Your task to perform on an android device: Search for the best rated 3d printer on Amazon. Image 0: 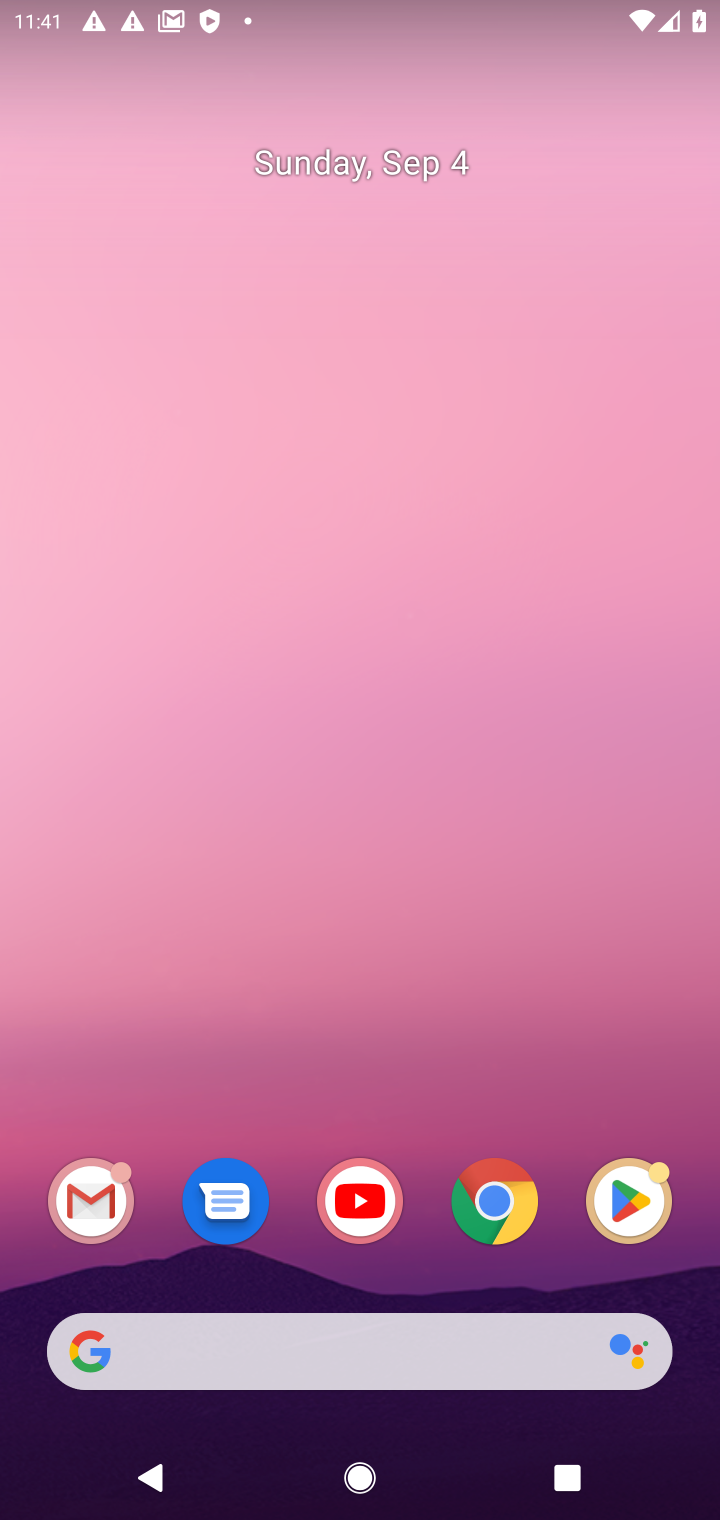
Step 0: click (497, 1196)
Your task to perform on an android device: Search for the best rated 3d printer on Amazon. Image 1: 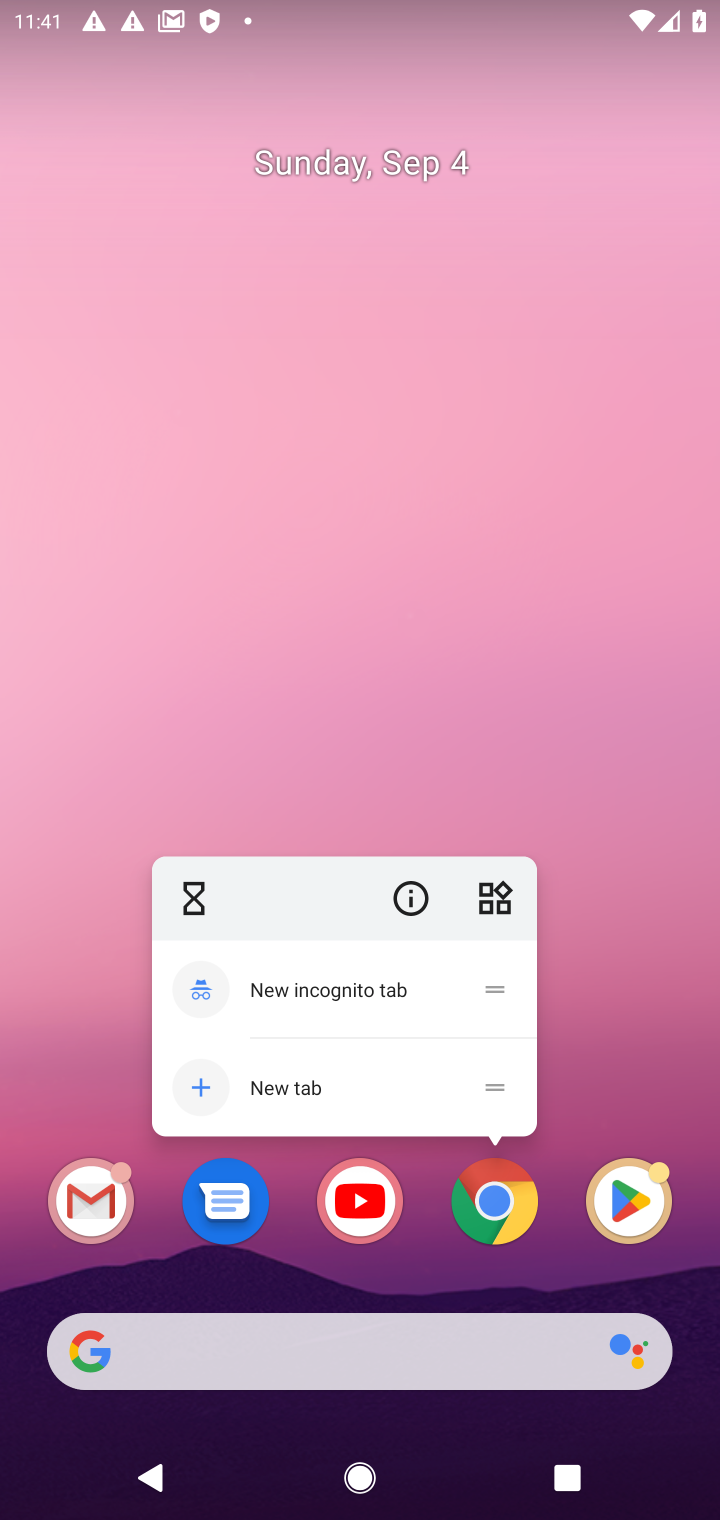
Step 1: click (499, 1190)
Your task to perform on an android device: Search for the best rated 3d printer on Amazon. Image 2: 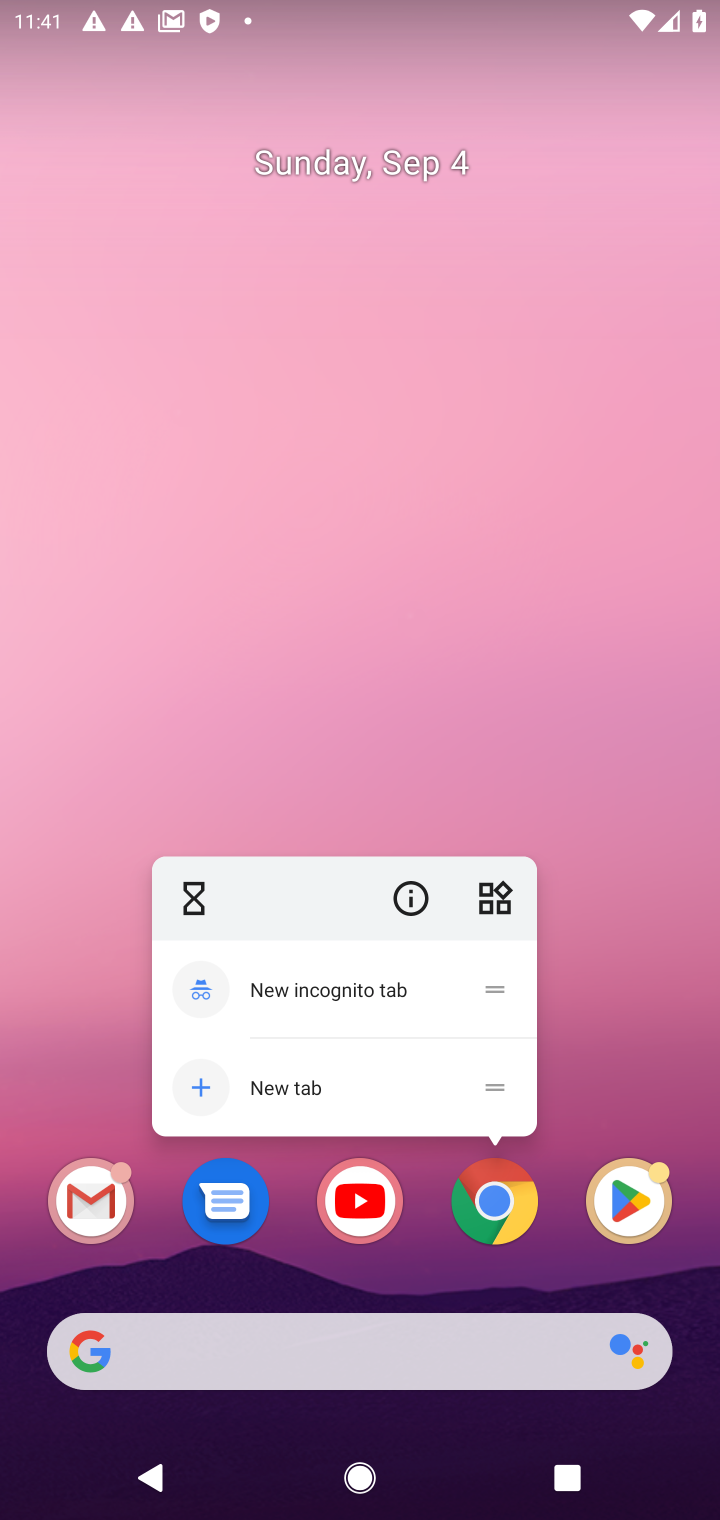
Step 2: click (505, 1217)
Your task to perform on an android device: Search for the best rated 3d printer on Amazon. Image 3: 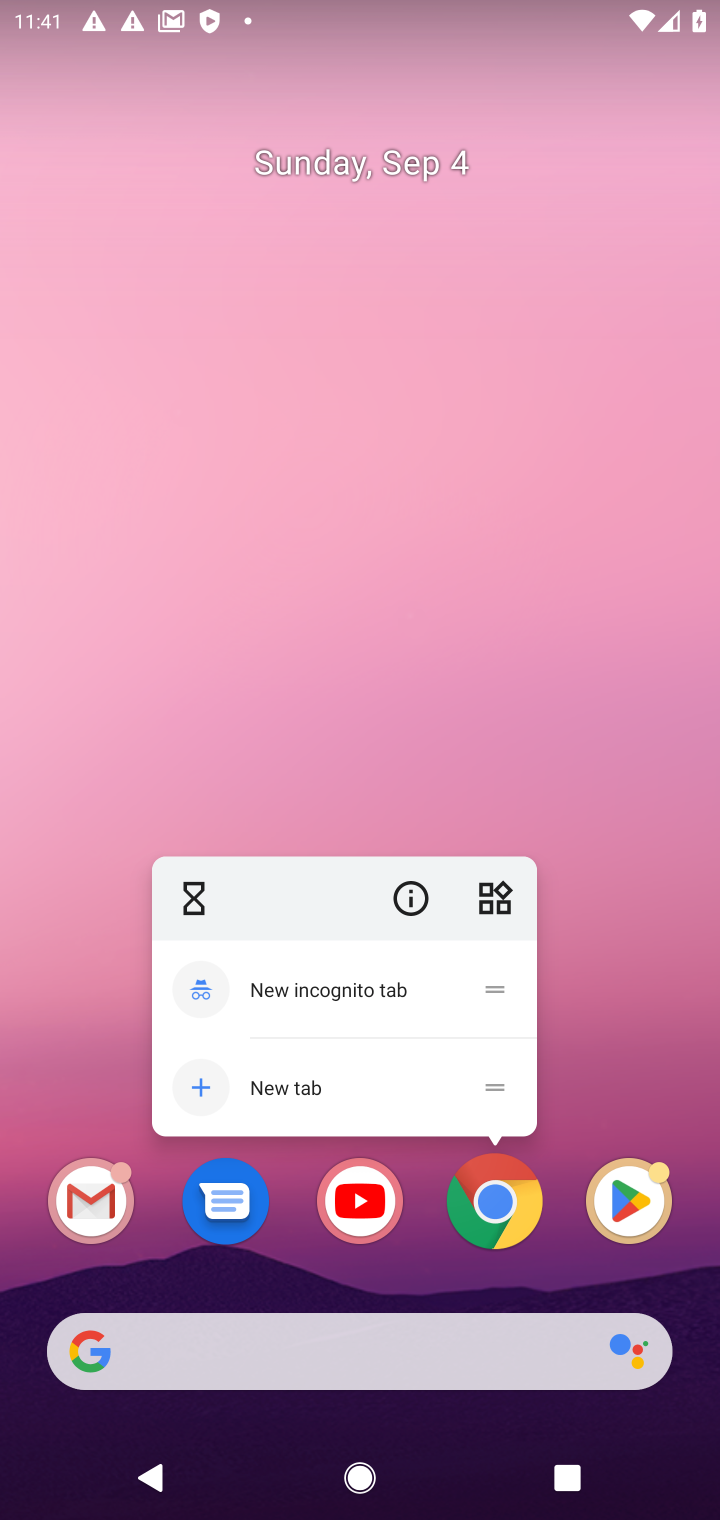
Step 3: click (505, 1217)
Your task to perform on an android device: Search for the best rated 3d printer on Amazon. Image 4: 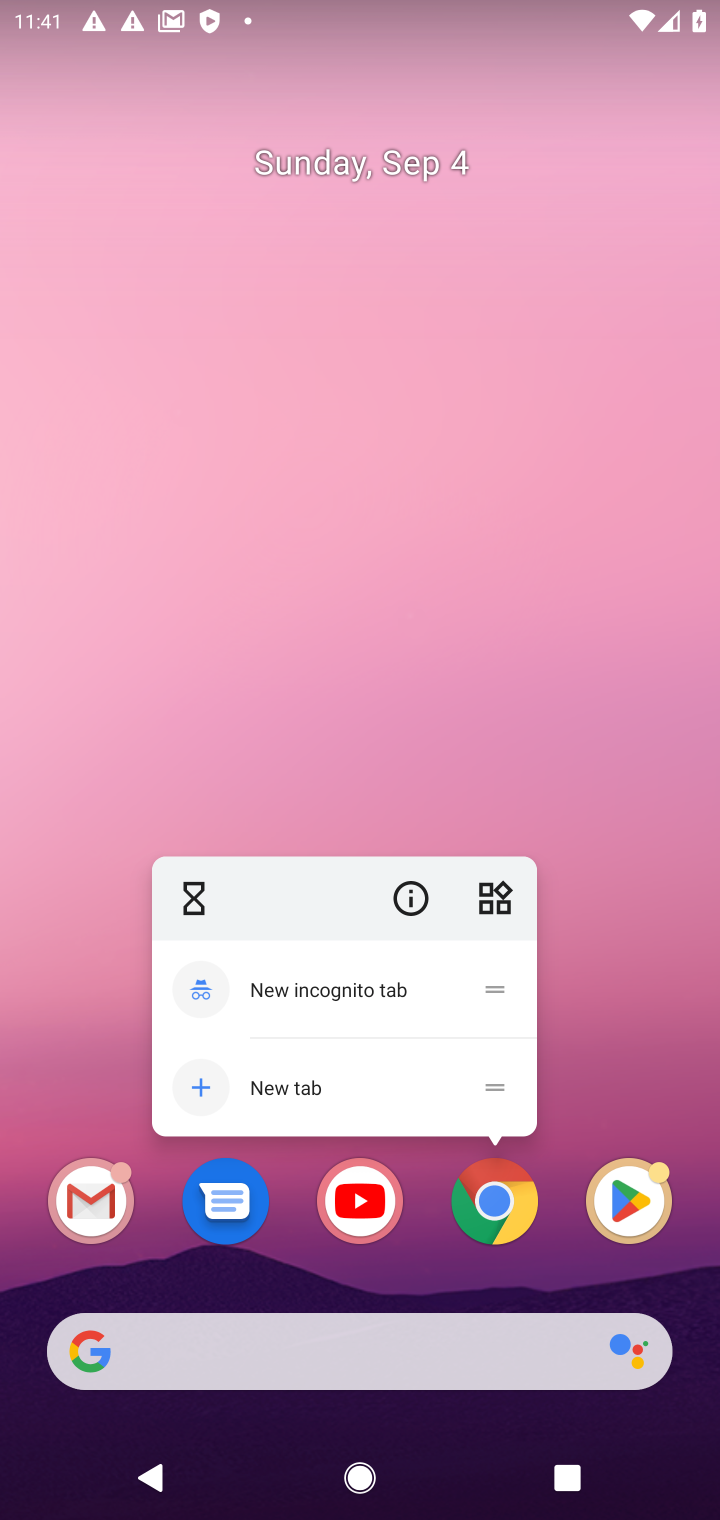
Step 4: click (497, 1196)
Your task to perform on an android device: Search for the best rated 3d printer on Amazon. Image 5: 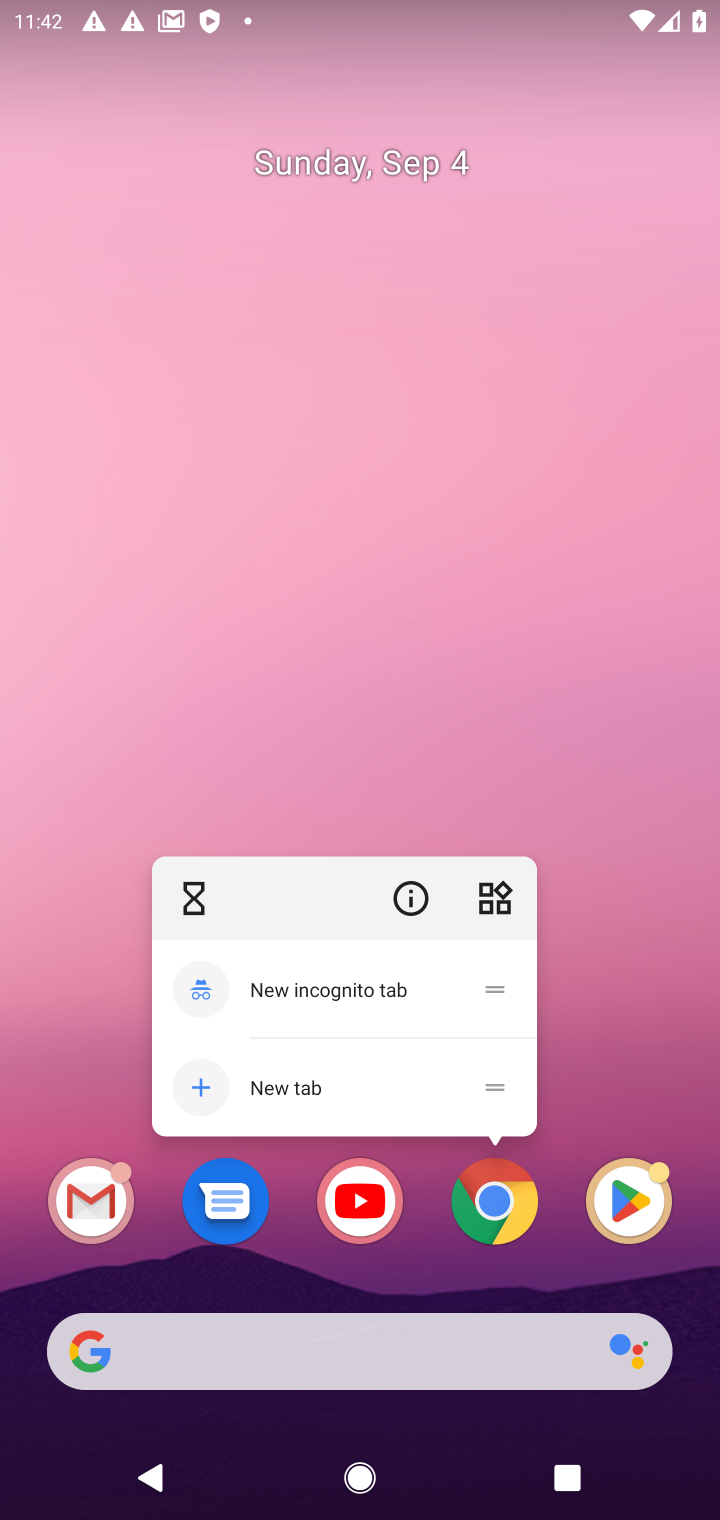
Step 5: click (495, 1229)
Your task to perform on an android device: Search for the best rated 3d printer on Amazon. Image 6: 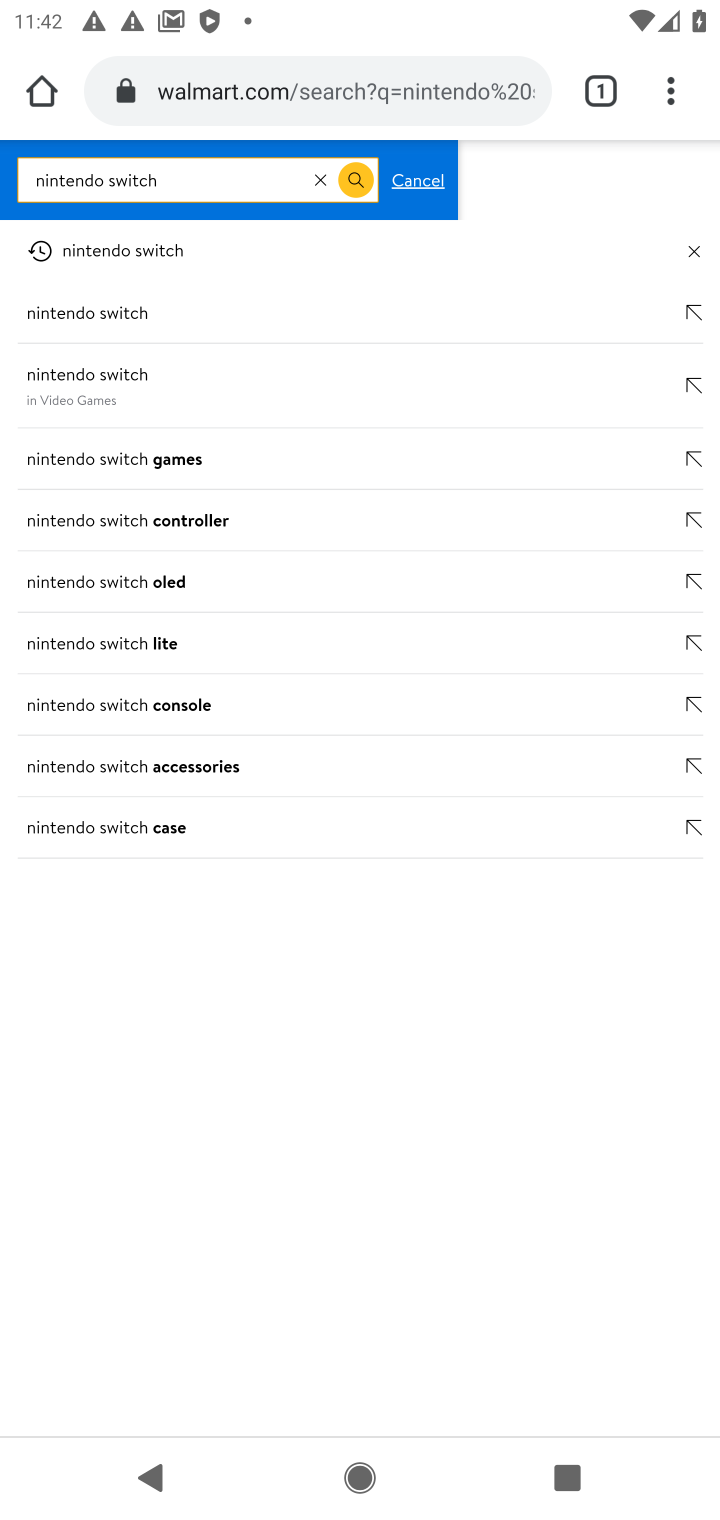
Step 6: click (483, 1197)
Your task to perform on an android device: Search for the best rated 3d printer on Amazon. Image 7: 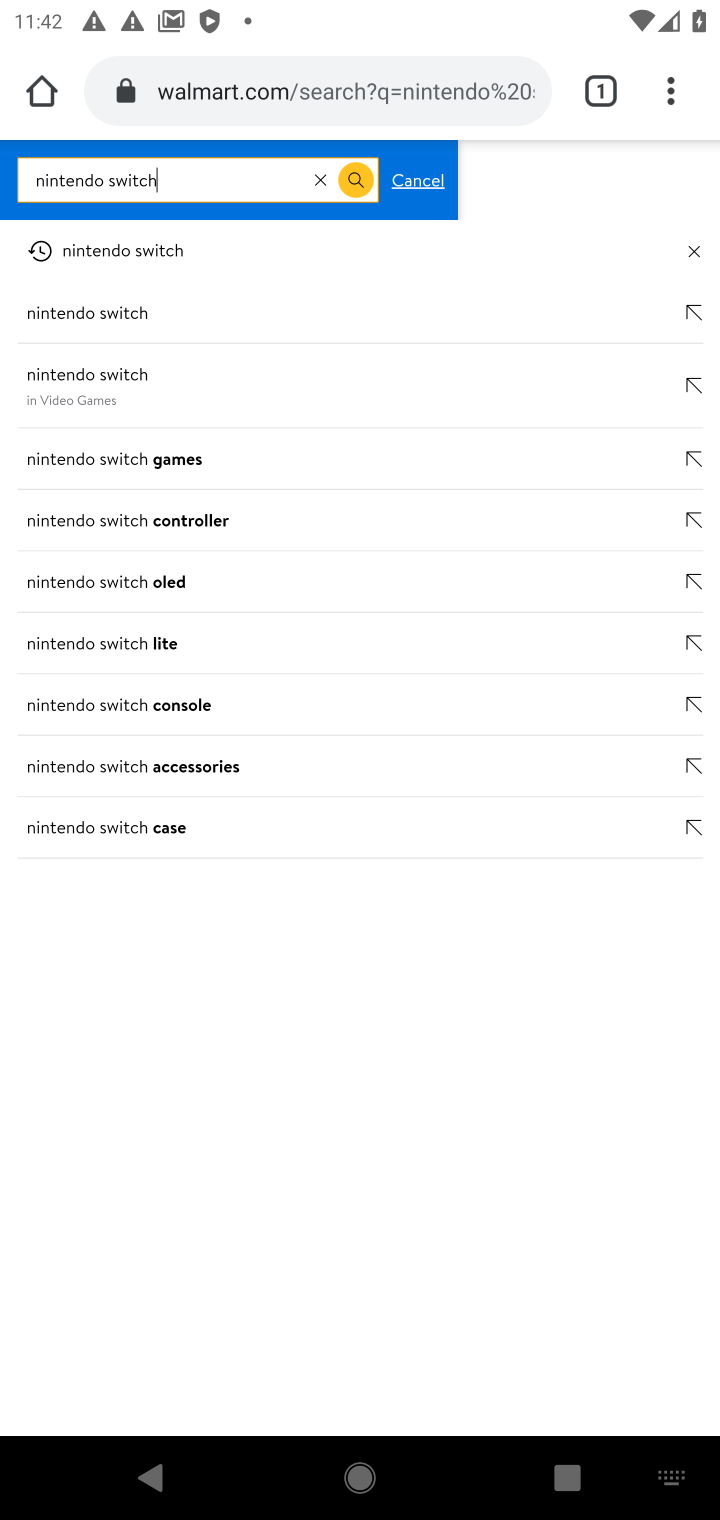
Step 7: click (356, 88)
Your task to perform on an android device: Search for the best rated 3d printer on Amazon. Image 8: 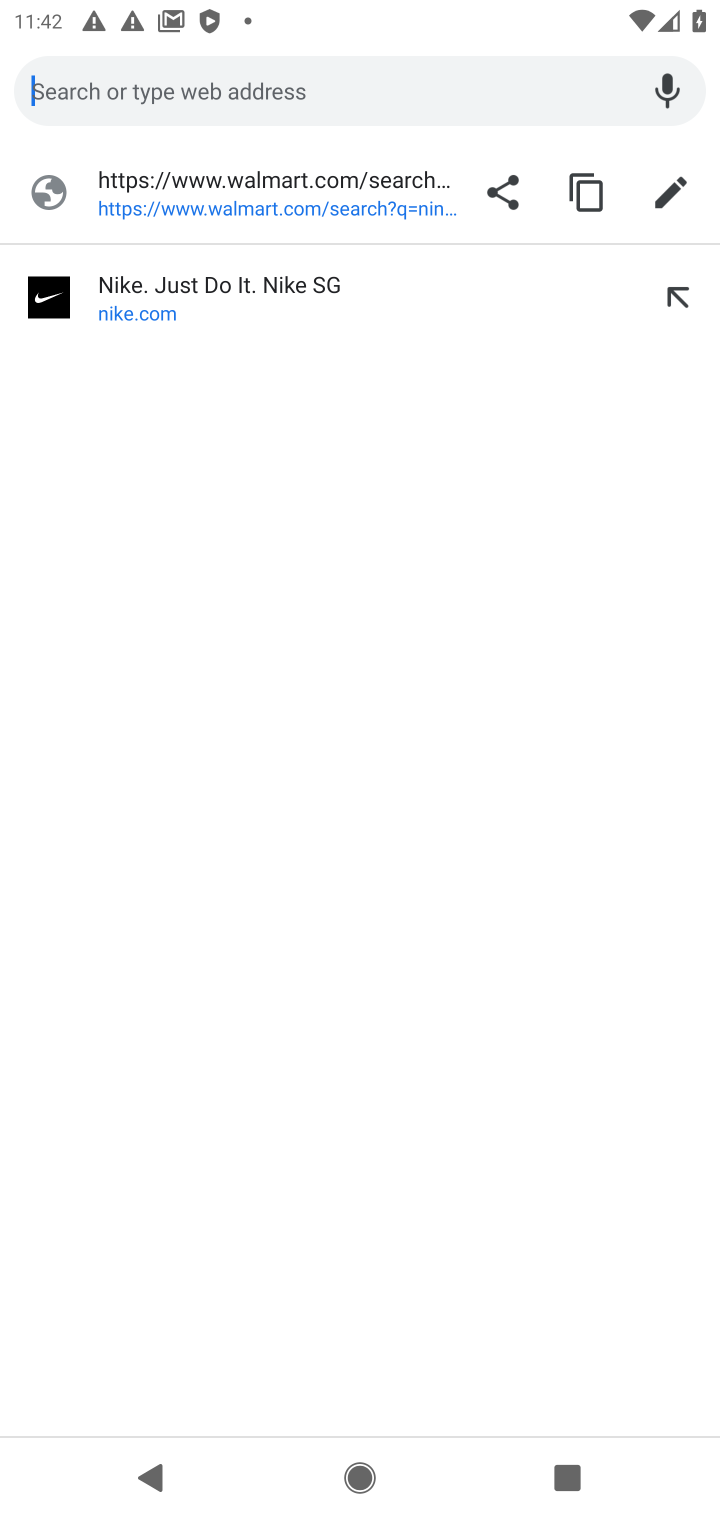
Step 8: type "amazon.com"
Your task to perform on an android device: Search for the best rated 3d printer on Amazon. Image 9: 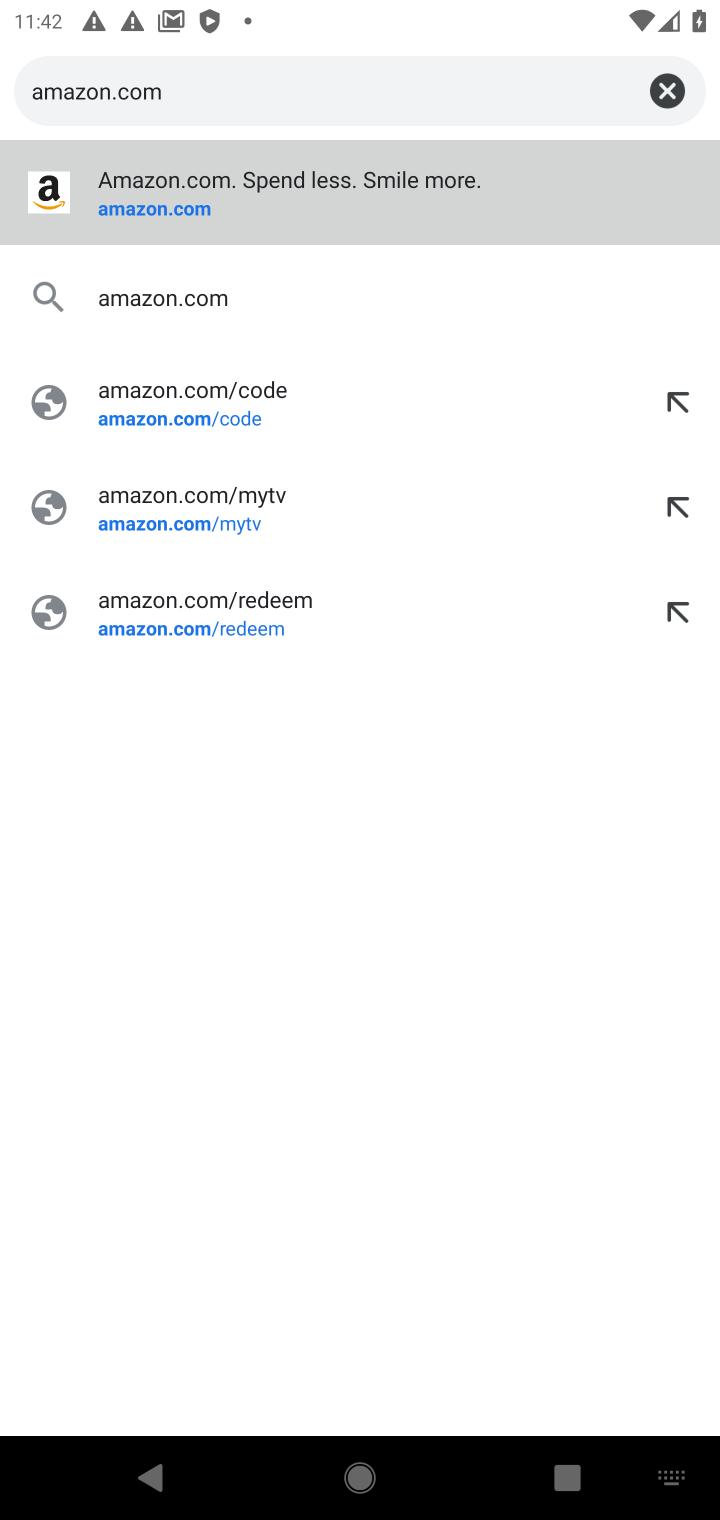
Step 9: click (132, 193)
Your task to perform on an android device: Search for the best rated 3d printer on Amazon. Image 10: 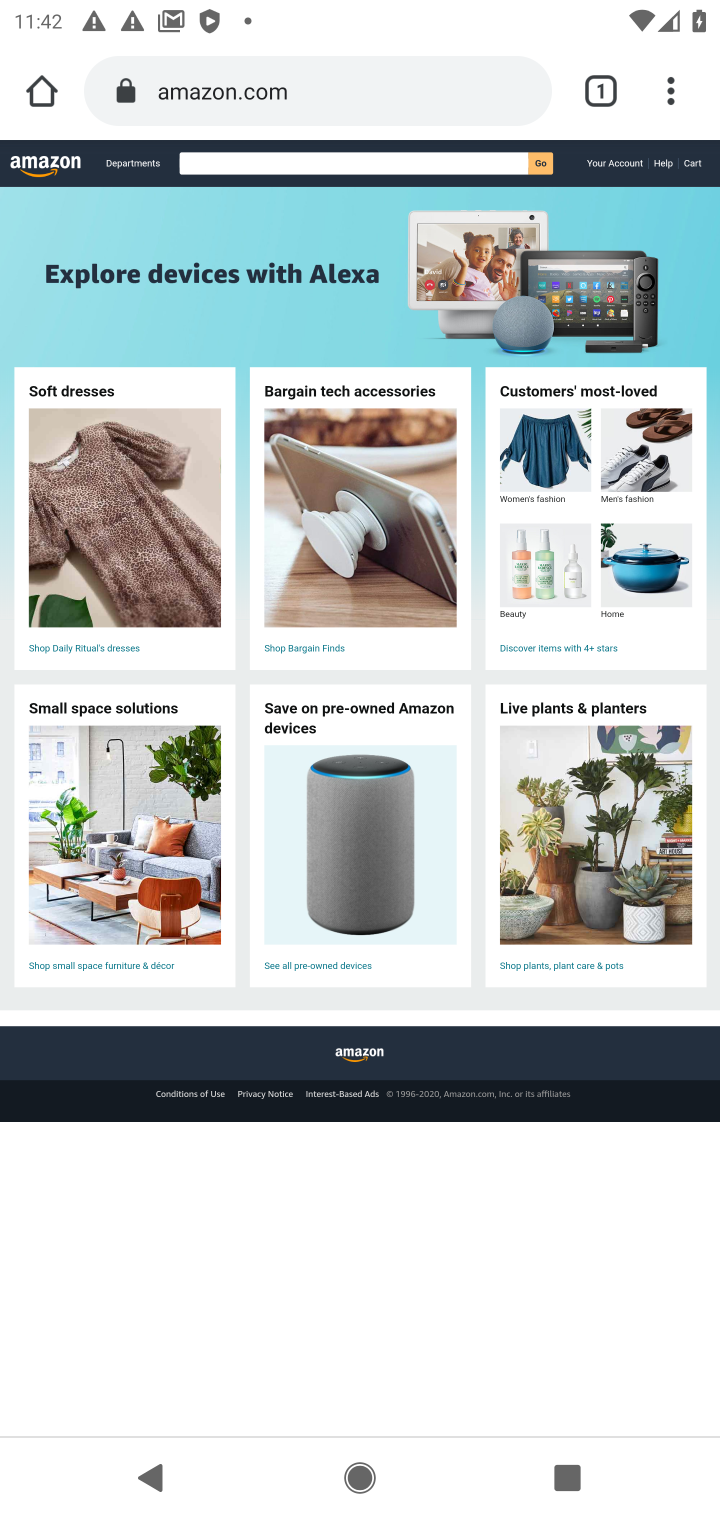
Step 10: click (386, 167)
Your task to perform on an android device: Search for the best rated 3d printer on Amazon. Image 11: 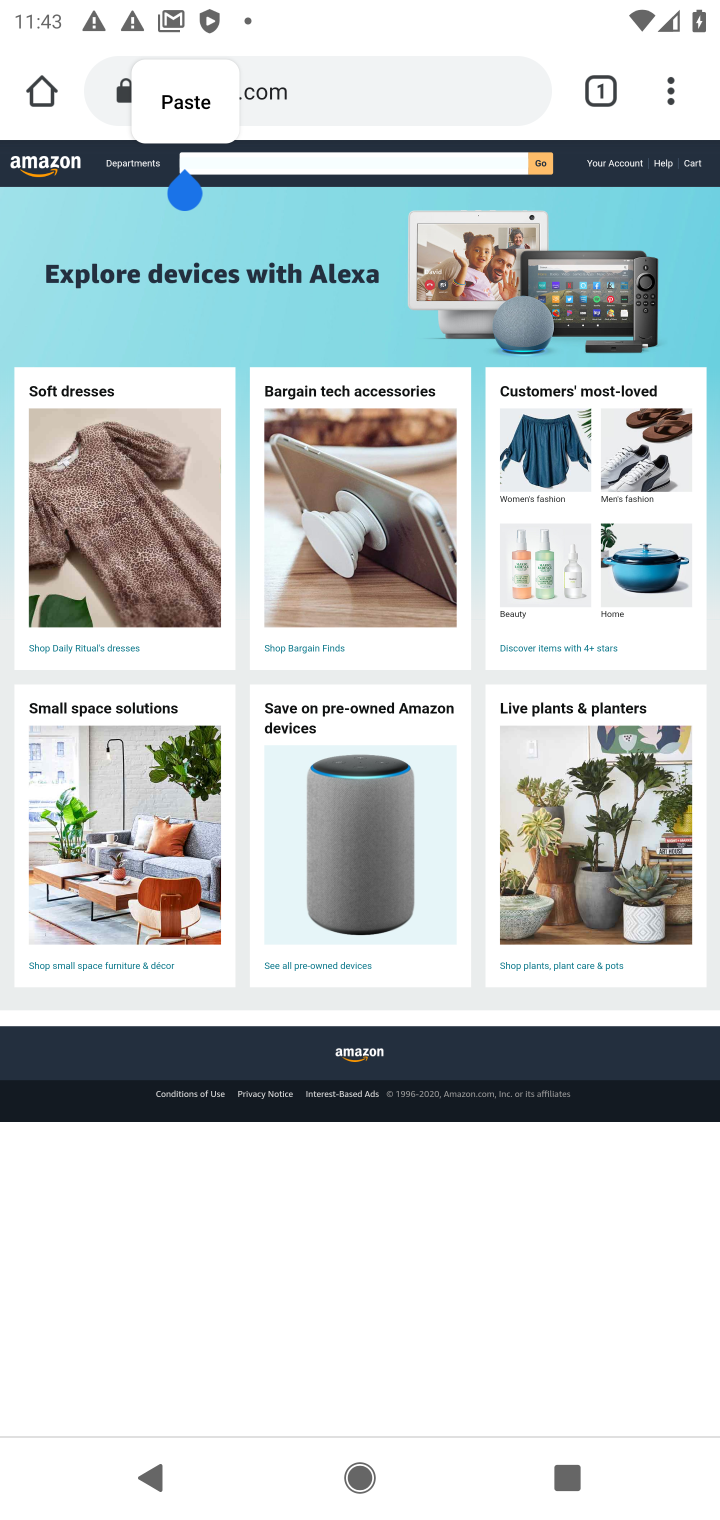
Step 11: type "3d printer"
Your task to perform on an android device: Search for the best rated 3d printer on Amazon. Image 12: 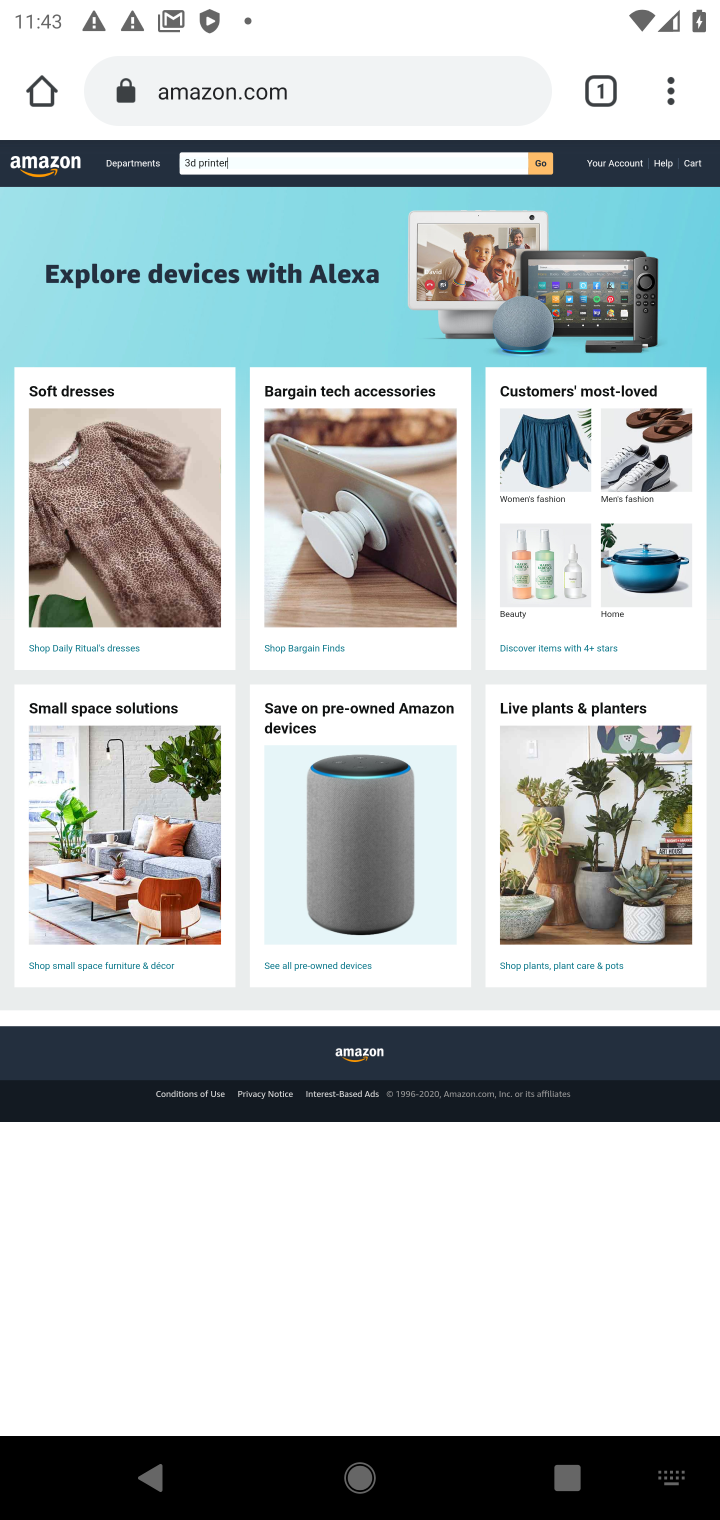
Step 12: click (480, 686)
Your task to perform on an android device: Search for the best rated 3d printer on Amazon. Image 13: 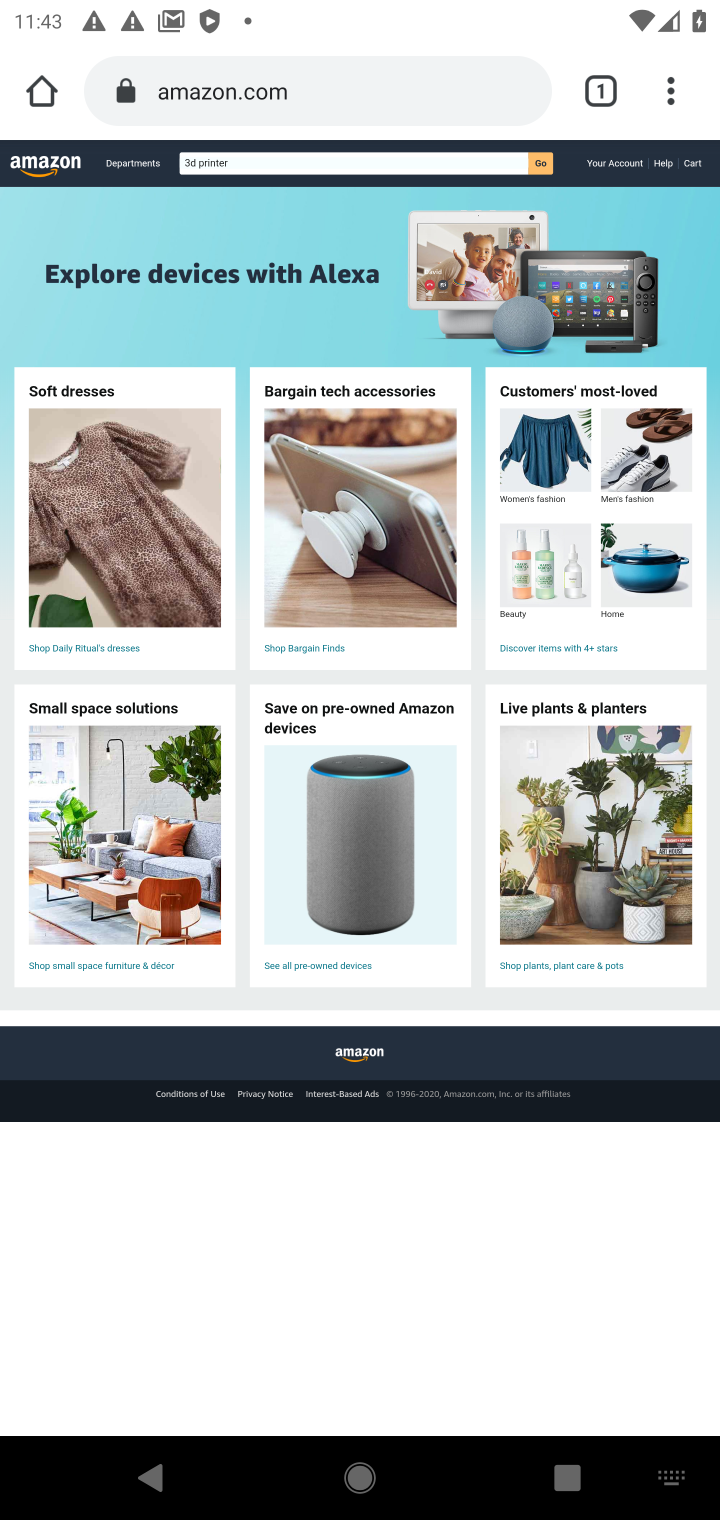
Step 13: drag from (510, 1313) to (459, 491)
Your task to perform on an android device: Search for the best rated 3d printer on Amazon. Image 14: 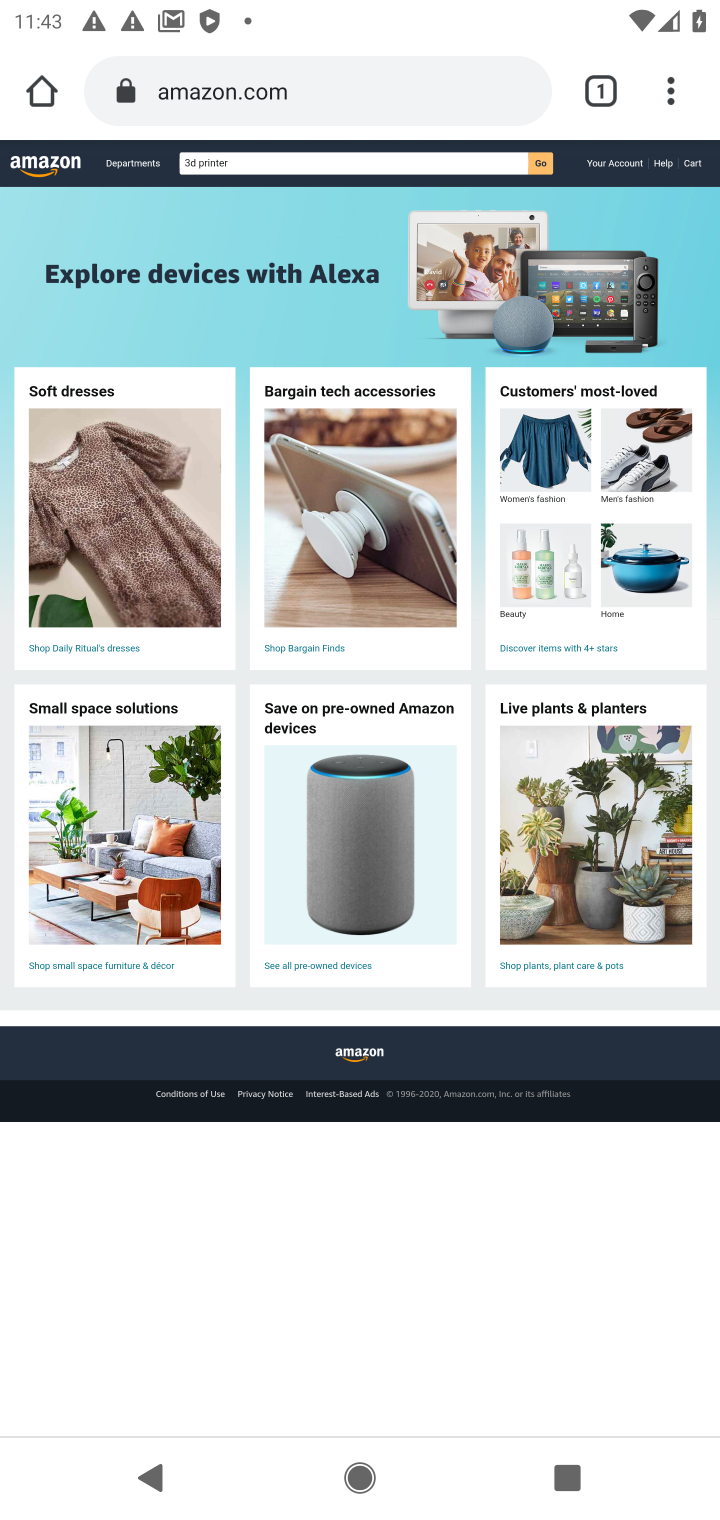
Step 14: click (290, 172)
Your task to perform on an android device: Search for the best rated 3d printer on Amazon. Image 15: 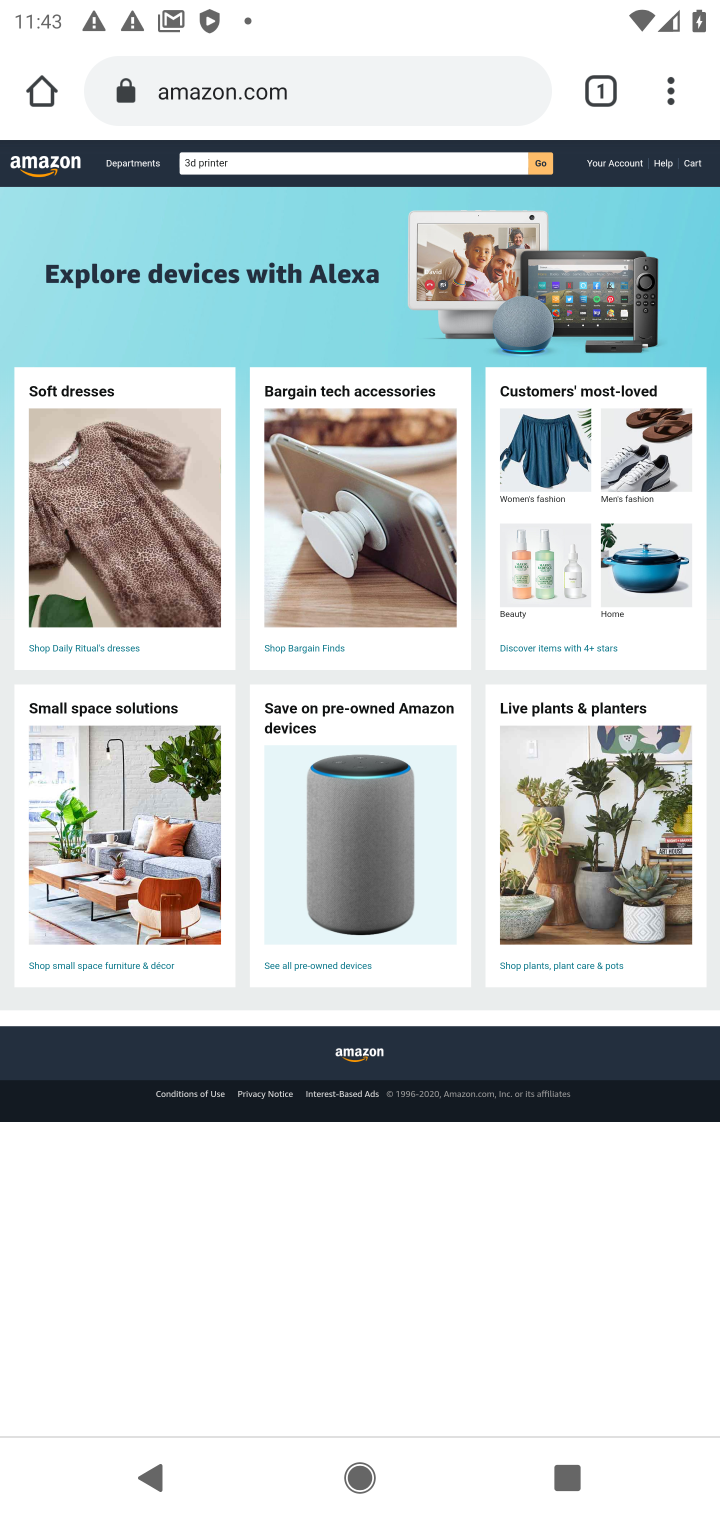
Step 15: drag from (500, 564) to (473, 990)
Your task to perform on an android device: Search for the best rated 3d printer on Amazon. Image 16: 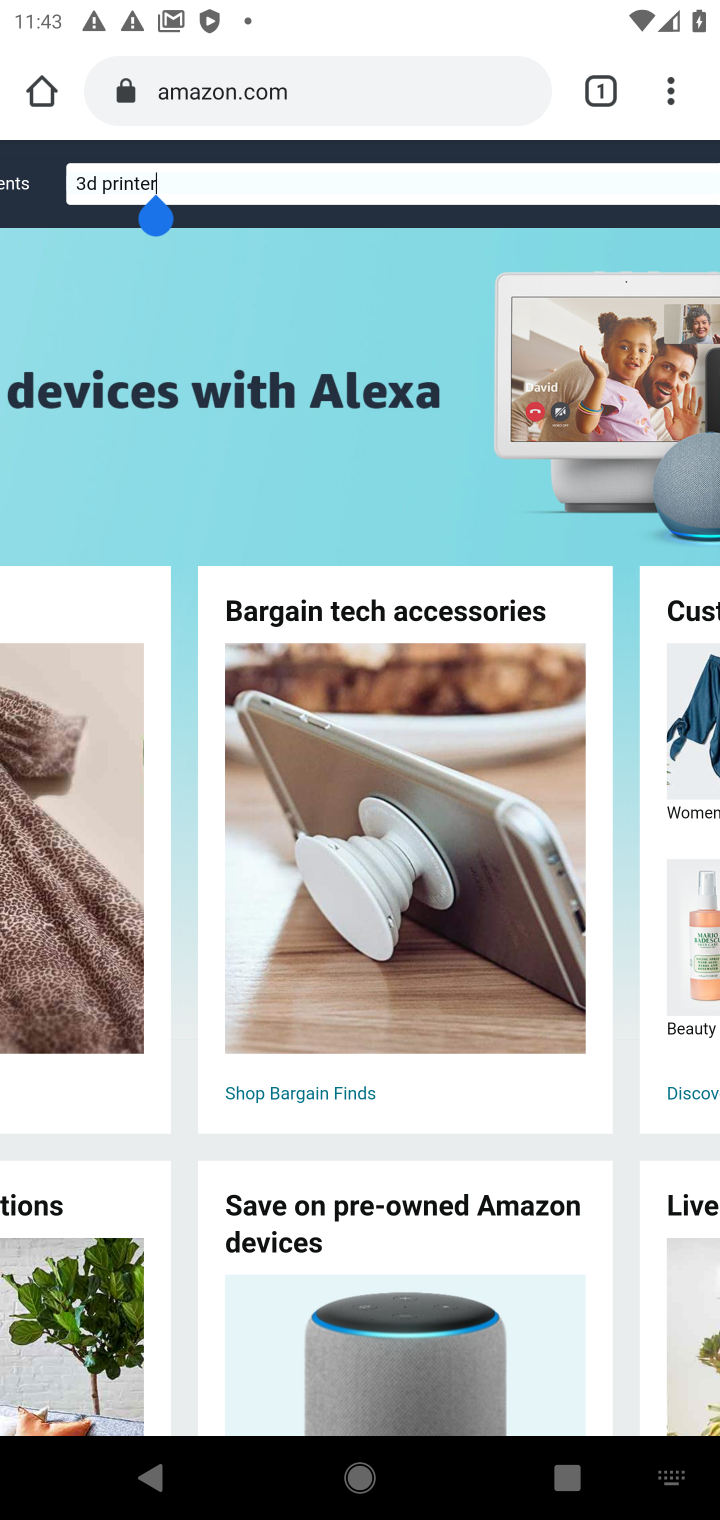
Step 16: press enter
Your task to perform on an android device: Search for the best rated 3d printer on Amazon. Image 17: 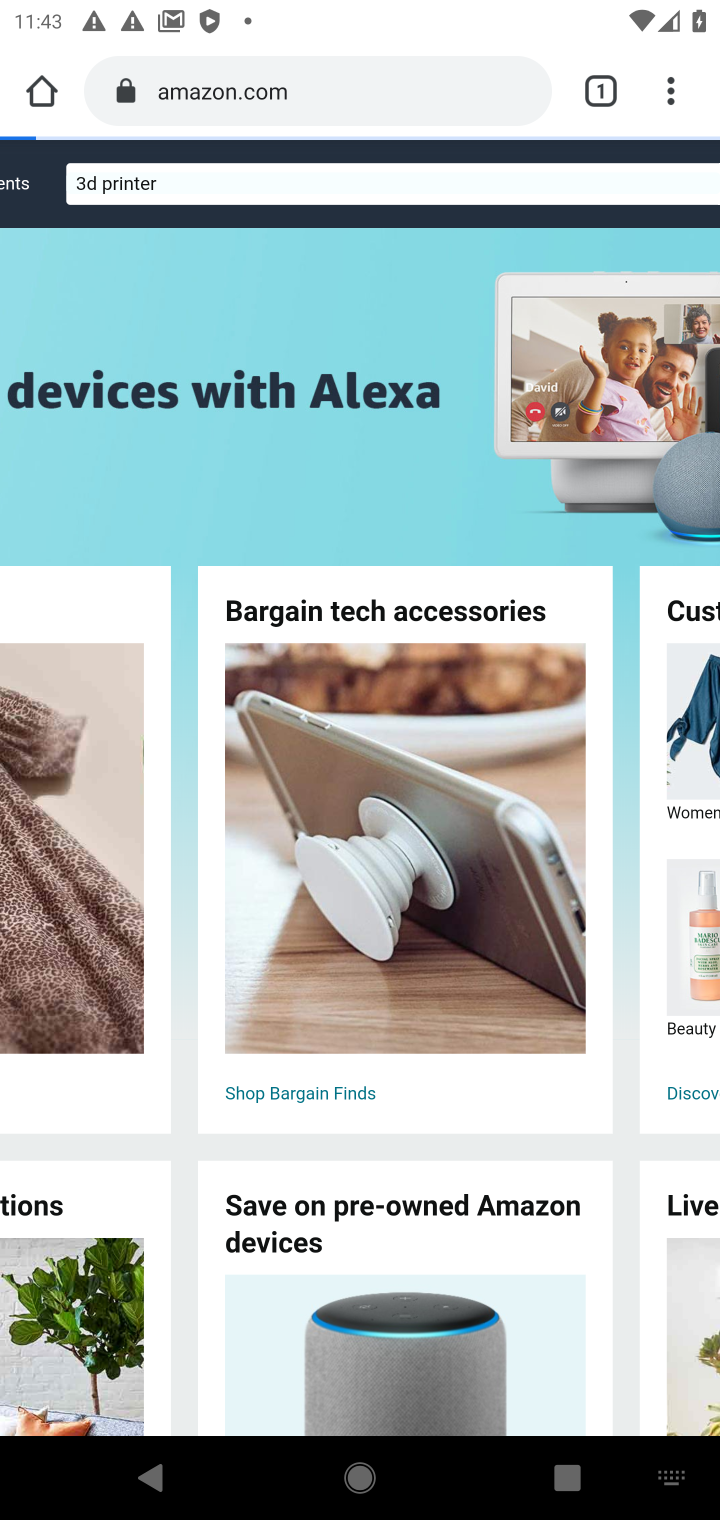
Step 17: click (227, 178)
Your task to perform on an android device: Search for the best rated 3d printer on Amazon. Image 18: 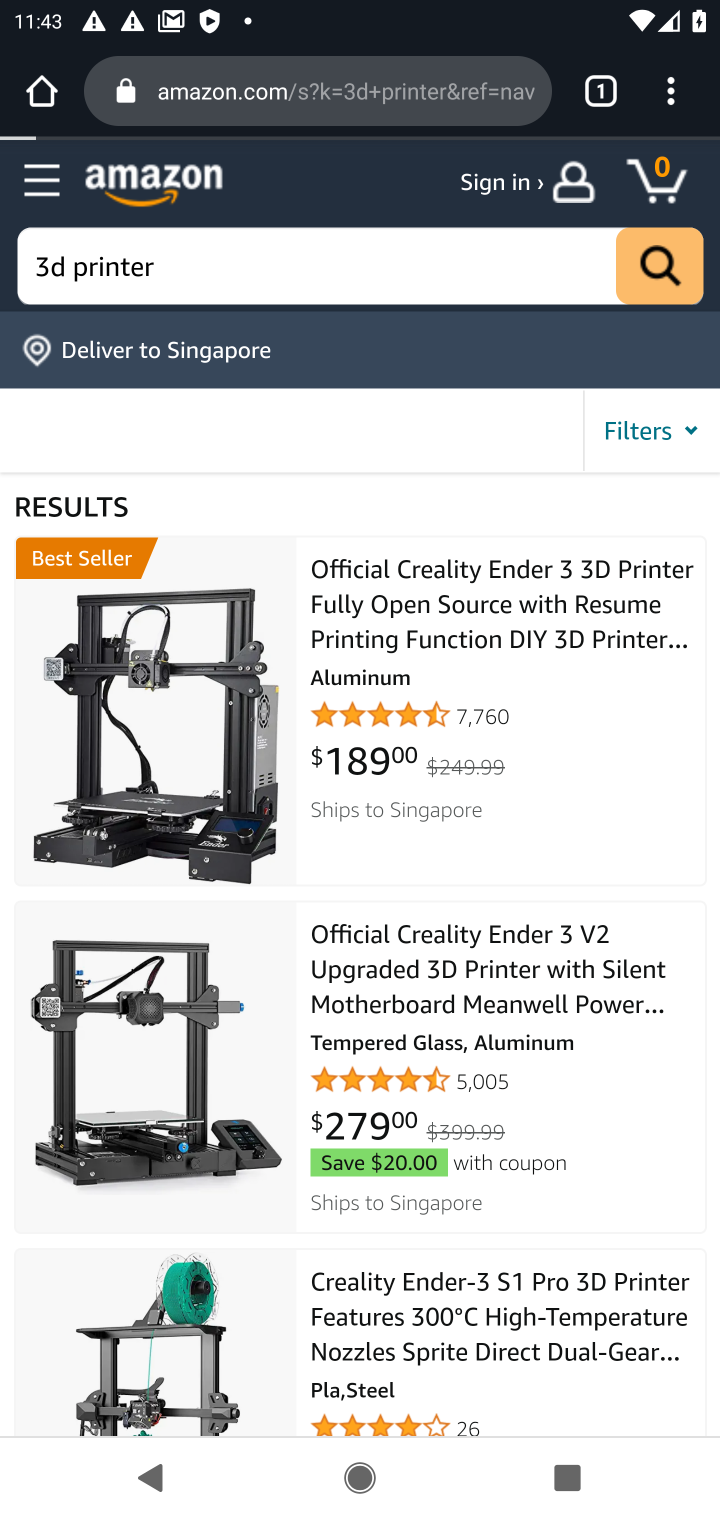
Step 18: drag from (538, 1061) to (608, 407)
Your task to perform on an android device: Search for the best rated 3d printer on Amazon. Image 19: 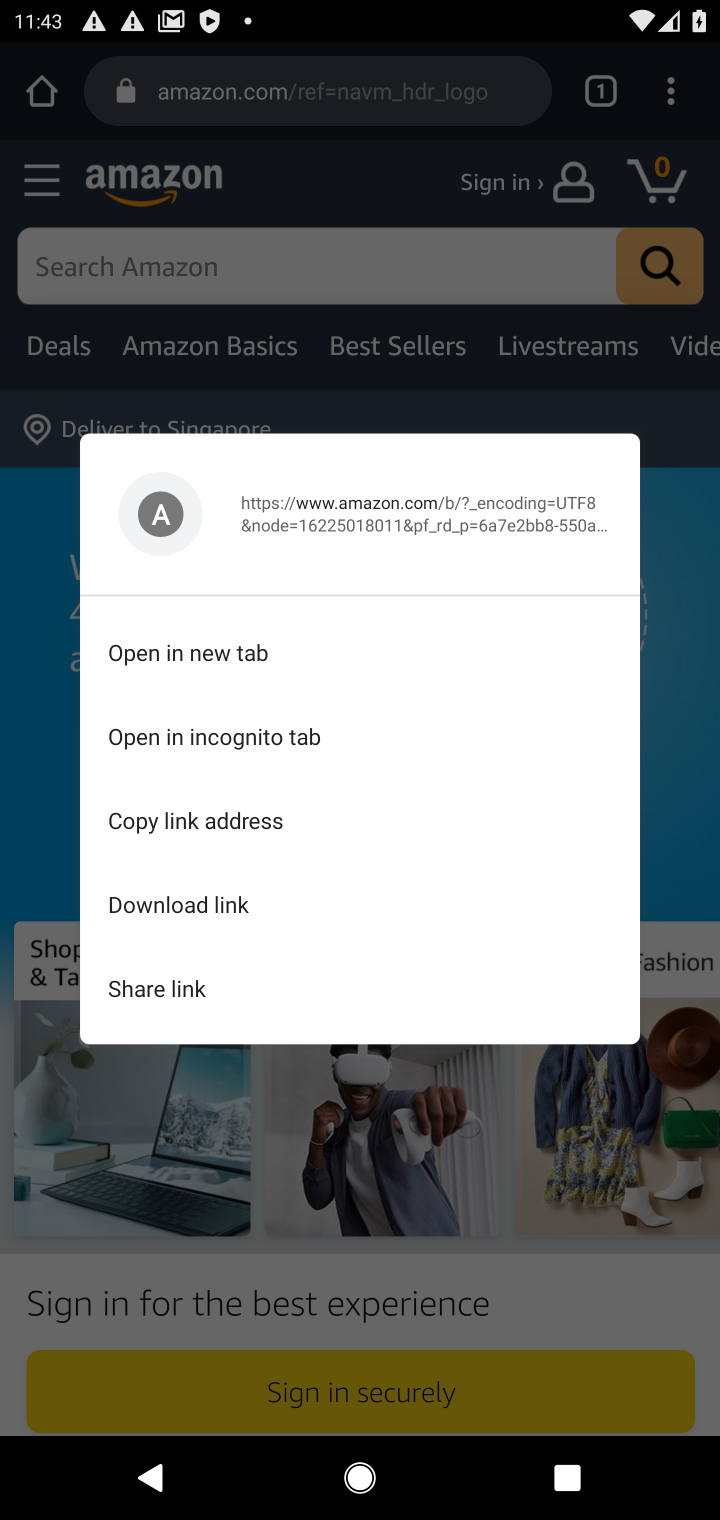
Step 19: drag from (246, 277) to (364, 242)
Your task to perform on an android device: Search for the best rated 3d printer on Amazon. Image 20: 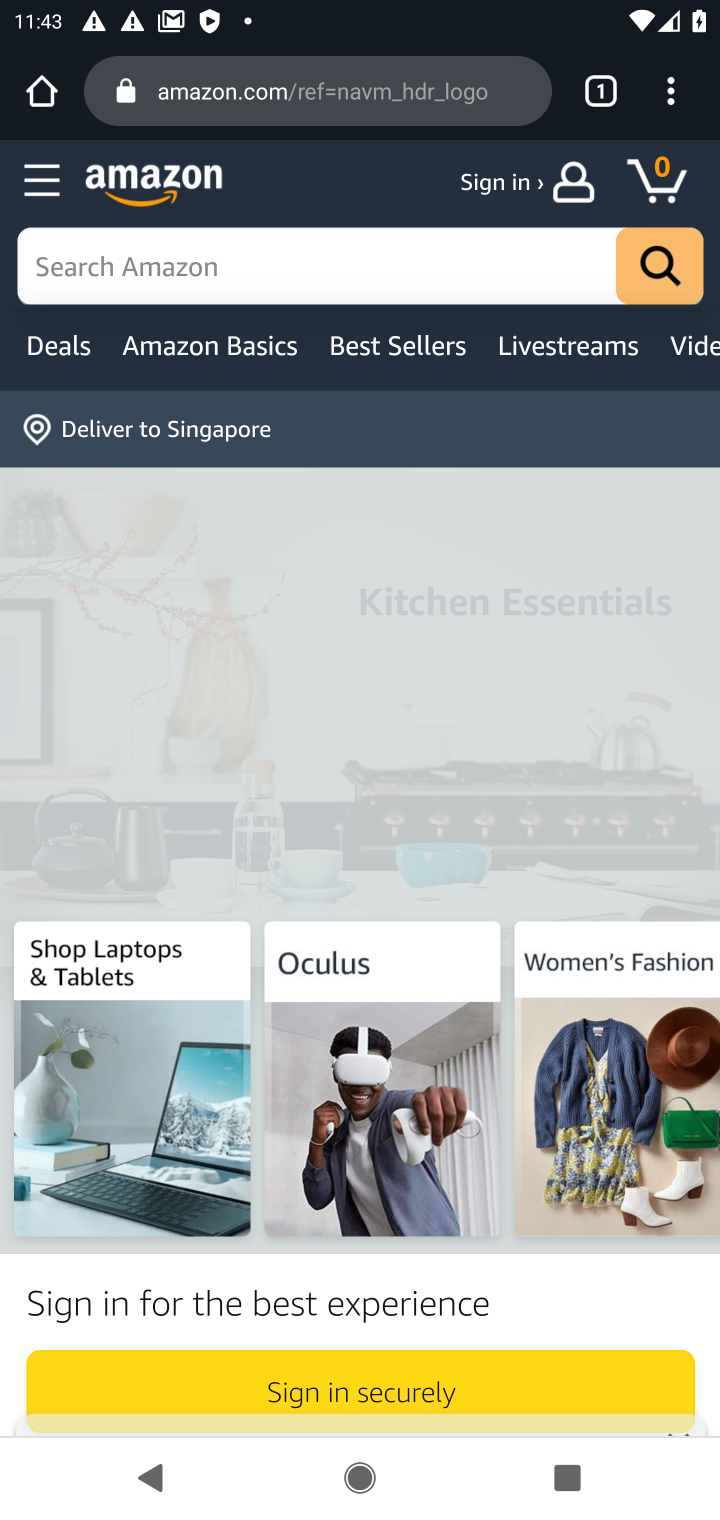
Step 20: click (372, 281)
Your task to perform on an android device: Search for the best rated 3d printer on Amazon. Image 21: 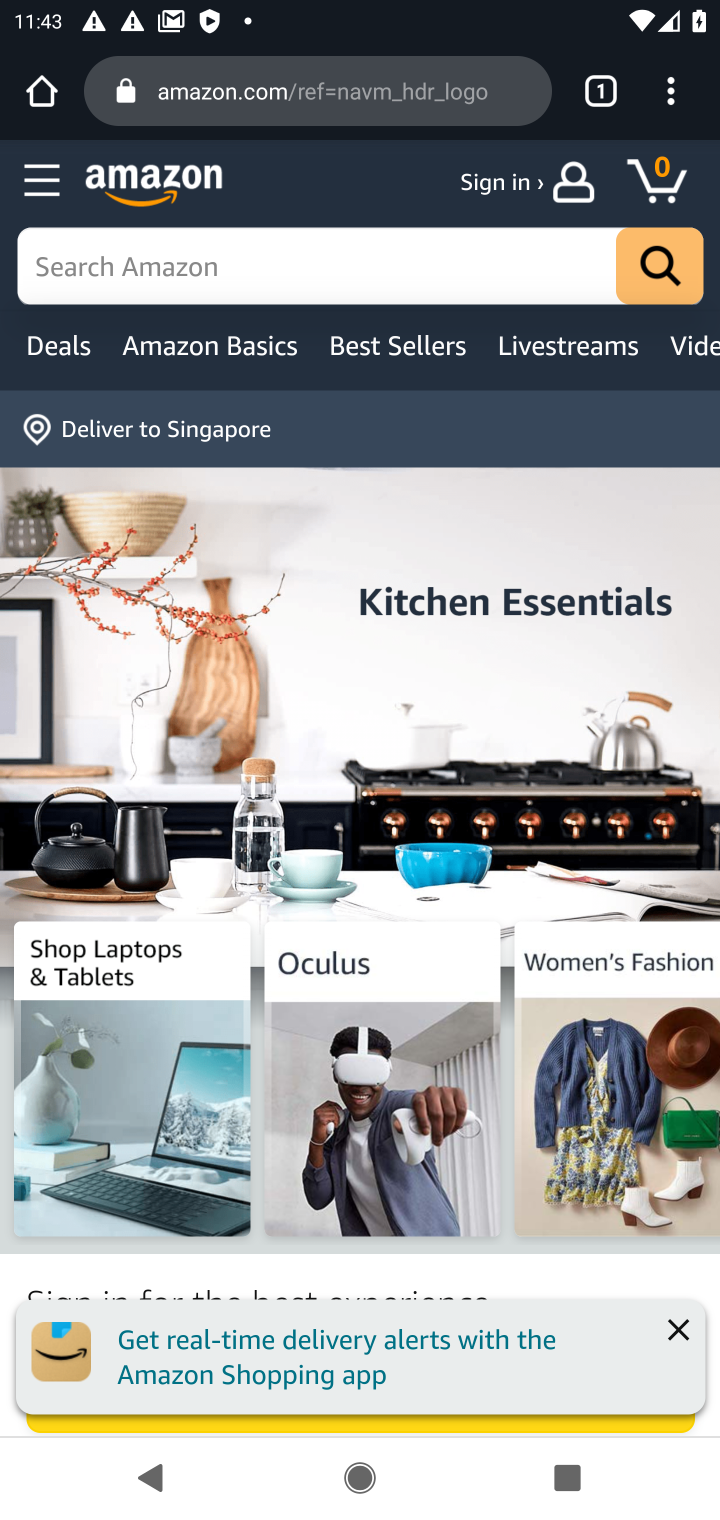
Step 21: click (216, 263)
Your task to perform on an android device: Search for the best rated 3d printer on Amazon. Image 22: 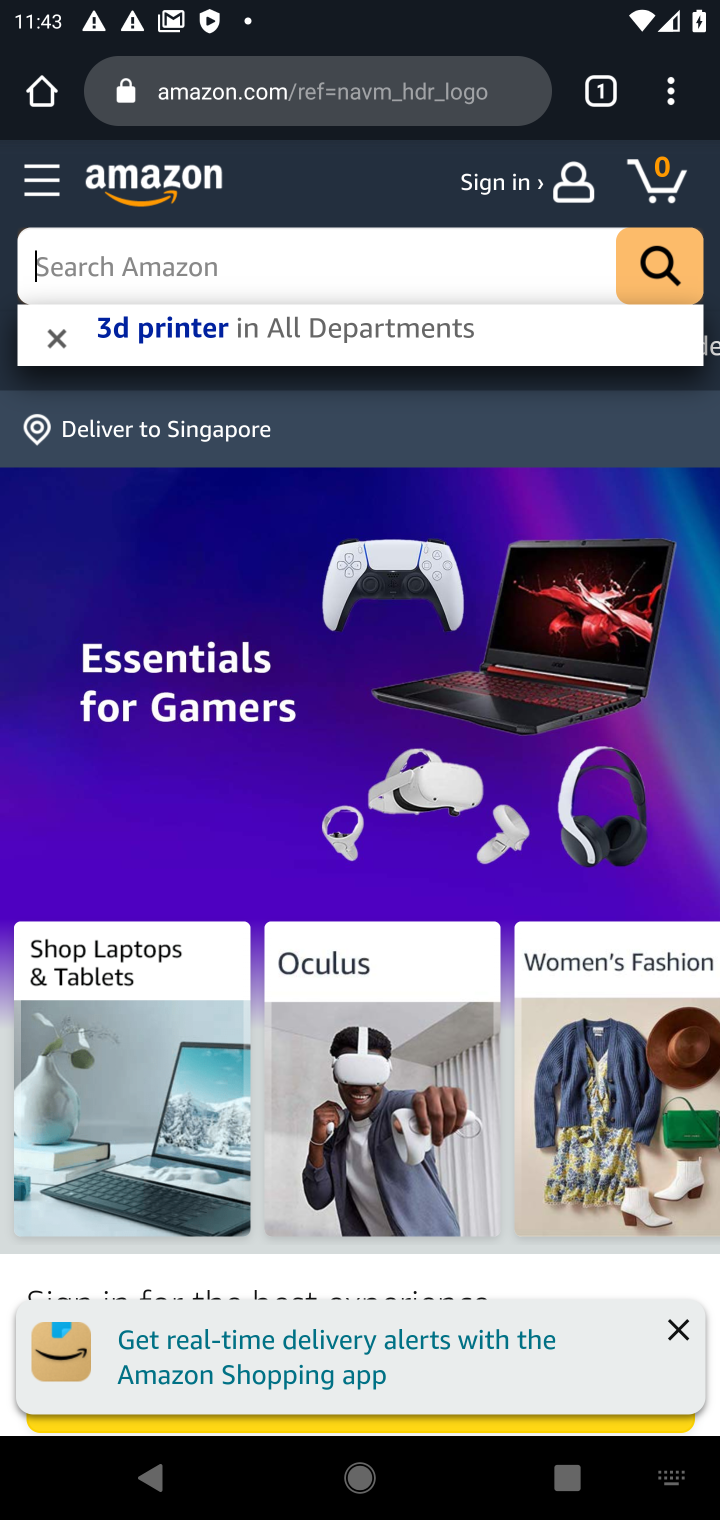
Step 22: click (209, 332)
Your task to perform on an android device: Search for the best rated 3d printer on Amazon. Image 23: 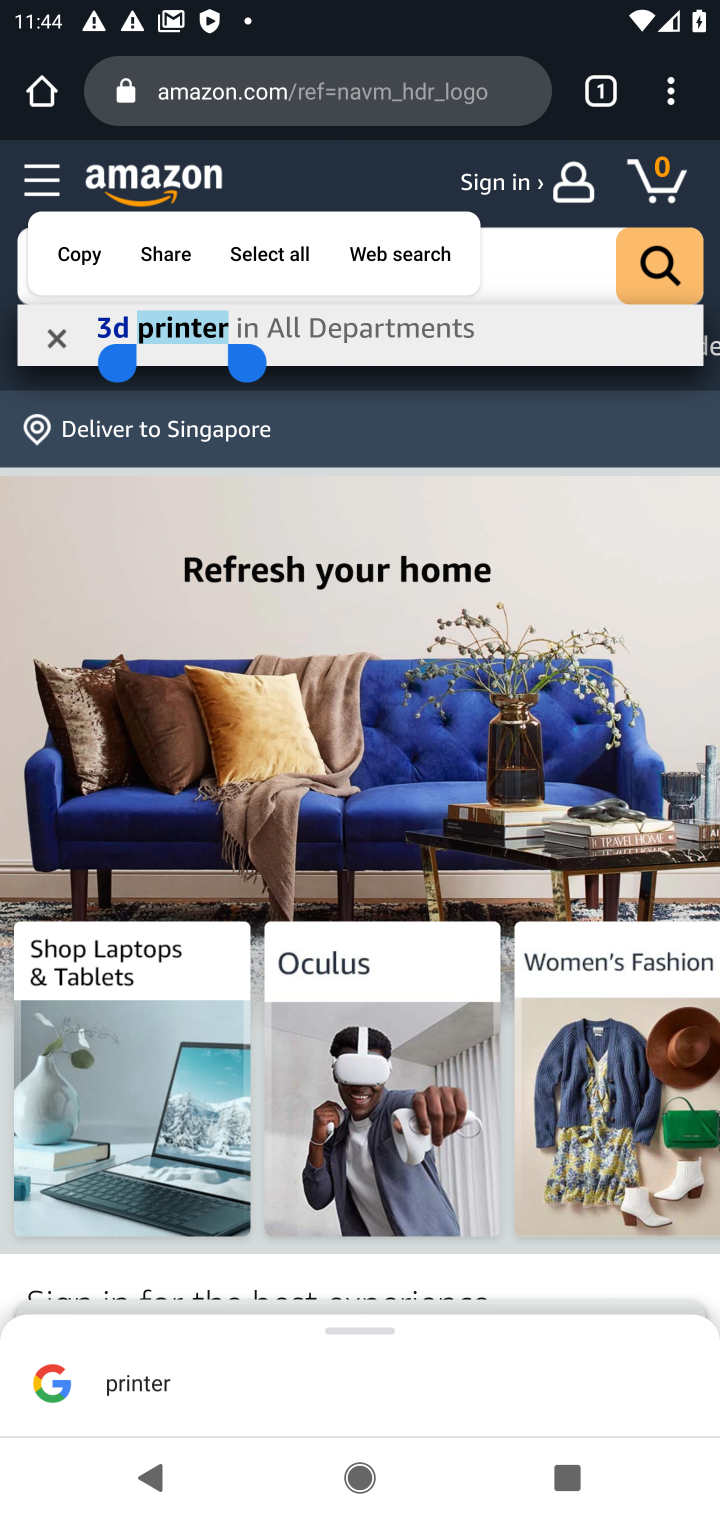
Step 23: drag from (474, 583) to (513, 472)
Your task to perform on an android device: Search for the best rated 3d printer on Amazon. Image 24: 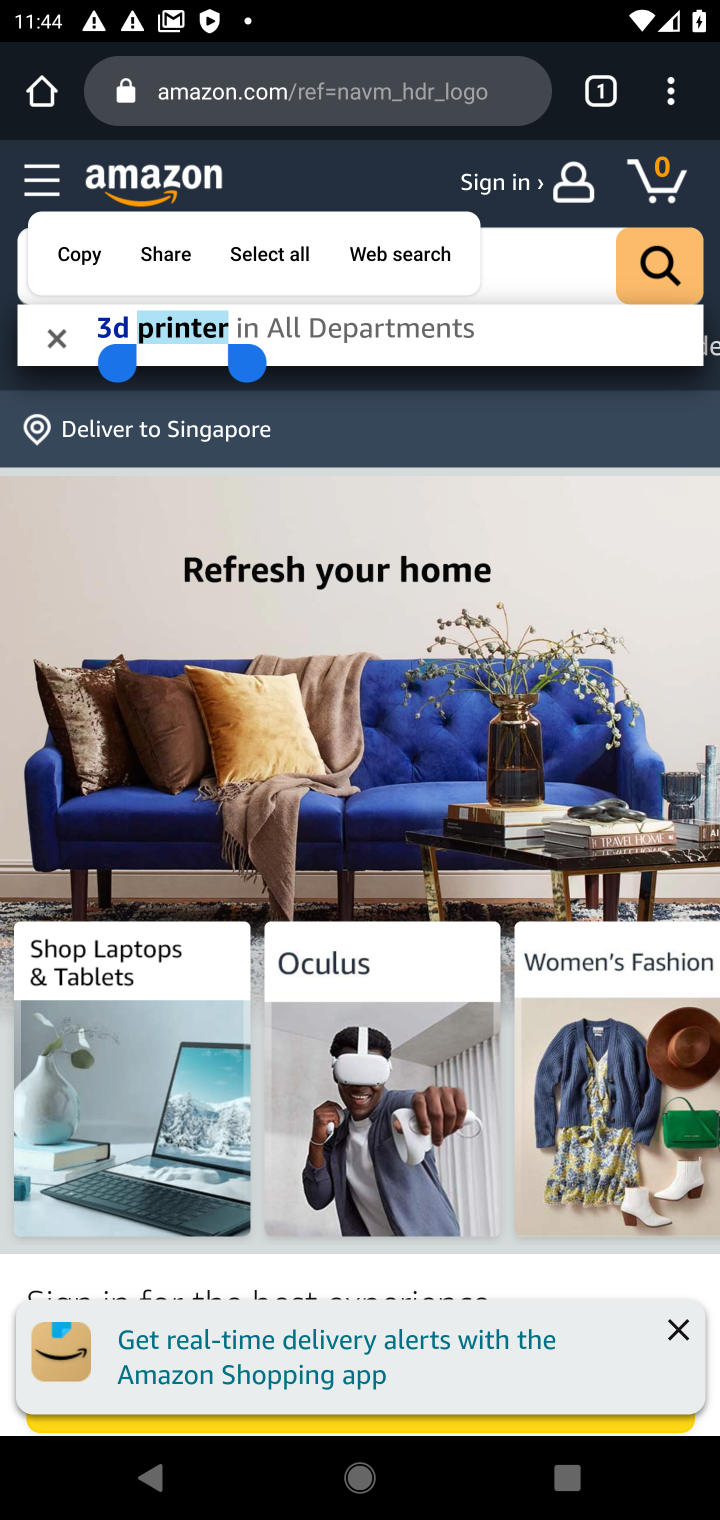
Step 24: click (598, 615)
Your task to perform on an android device: Search for the best rated 3d printer on Amazon. Image 25: 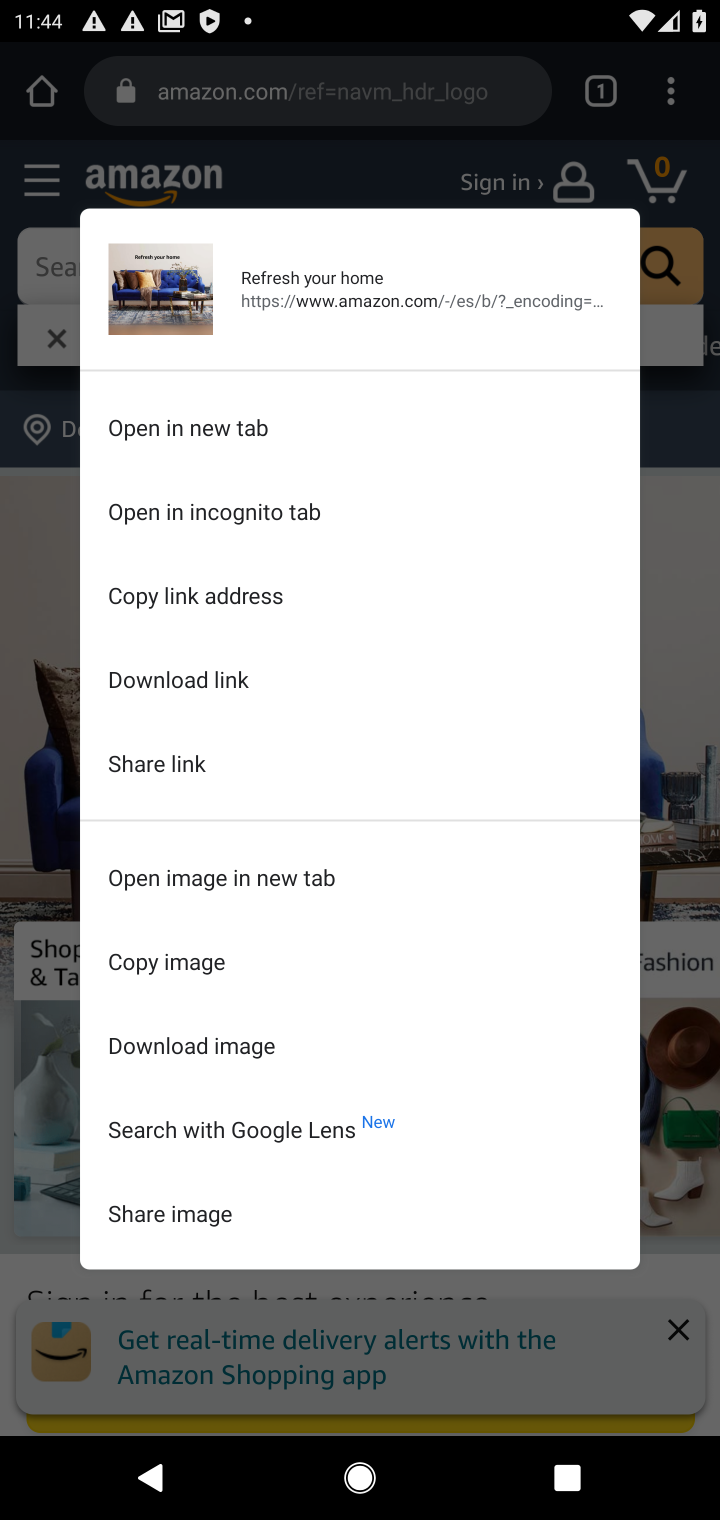
Step 25: click (678, 1339)
Your task to perform on an android device: Search for the best rated 3d printer on Amazon. Image 26: 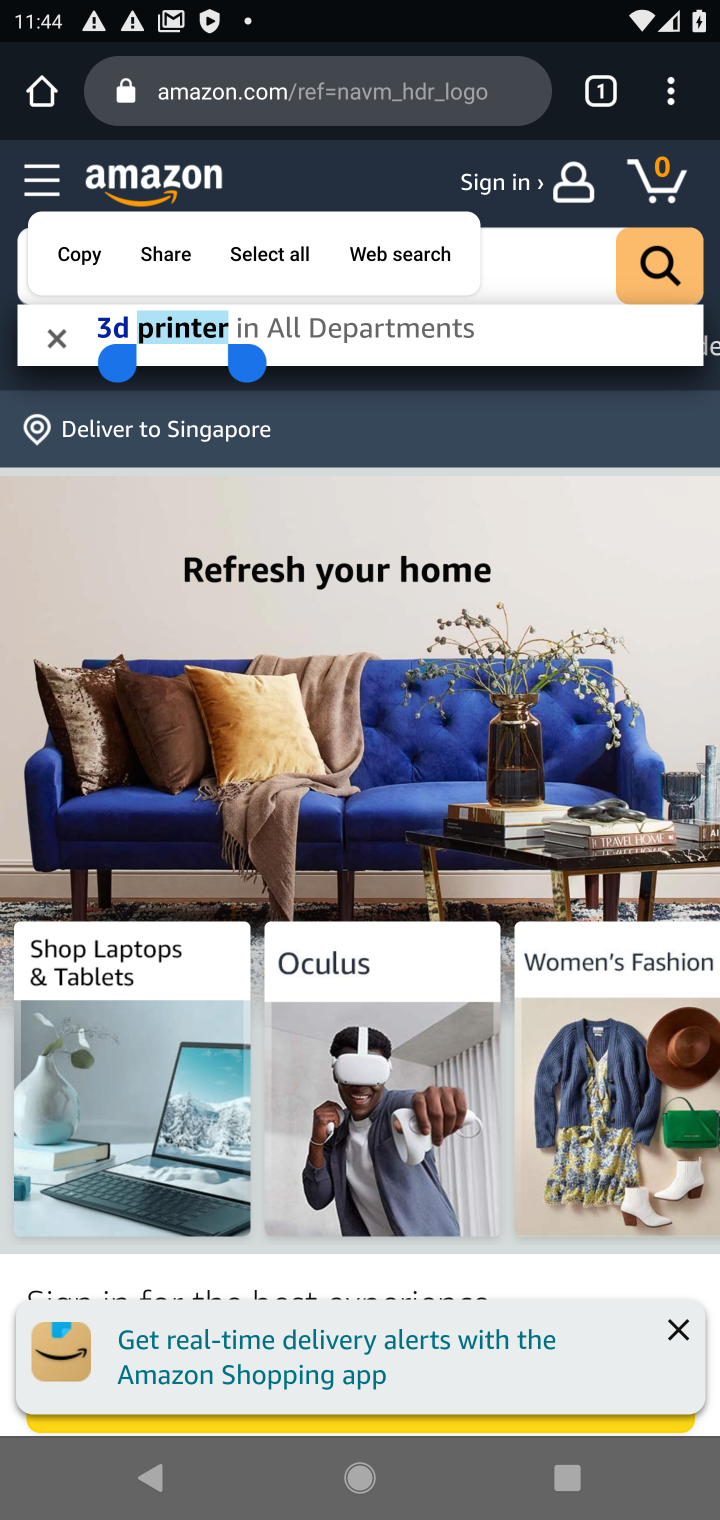
Step 26: click (683, 1330)
Your task to perform on an android device: Search for the best rated 3d printer on Amazon. Image 27: 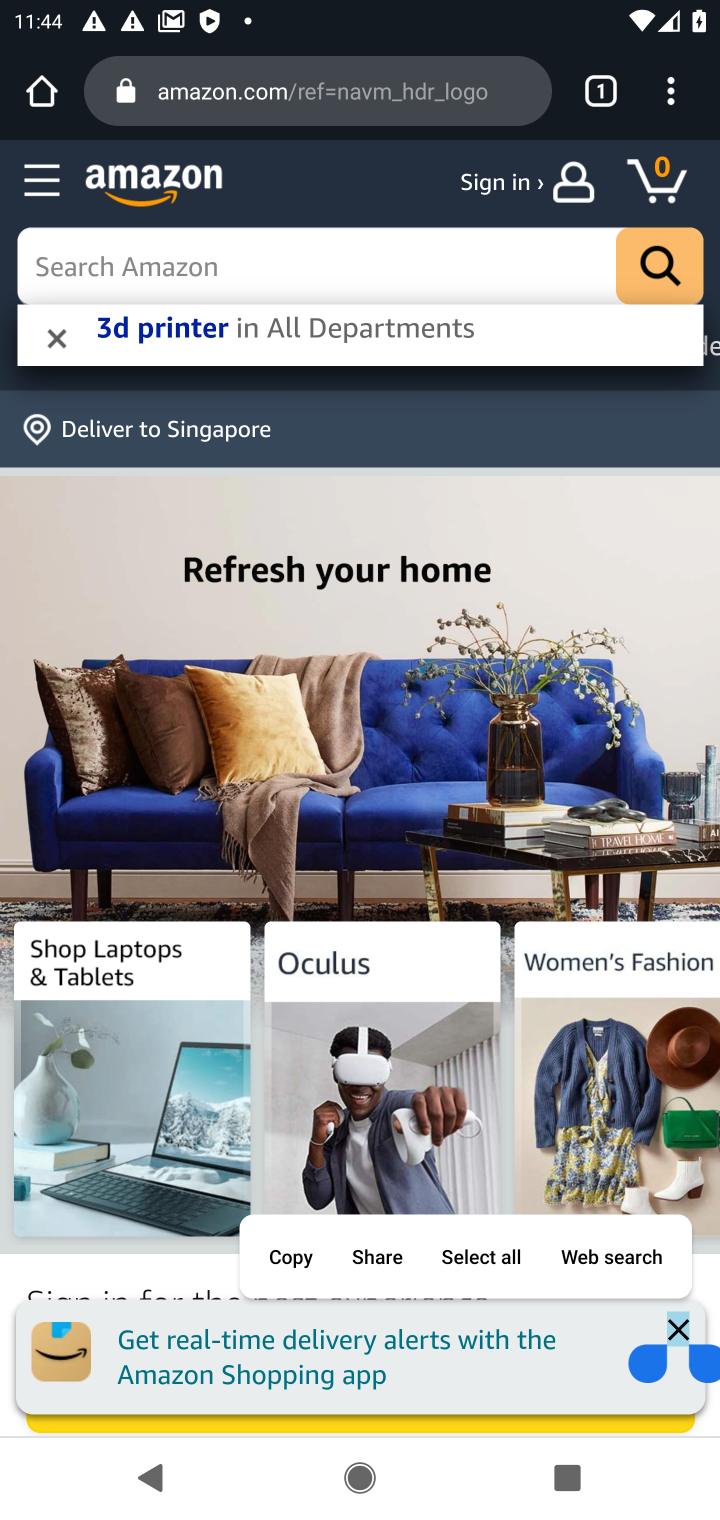
Step 27: click (688, 1320)
Your task to perform on an android device: Search for the best rated 3d printer on Amazon. Image 28: 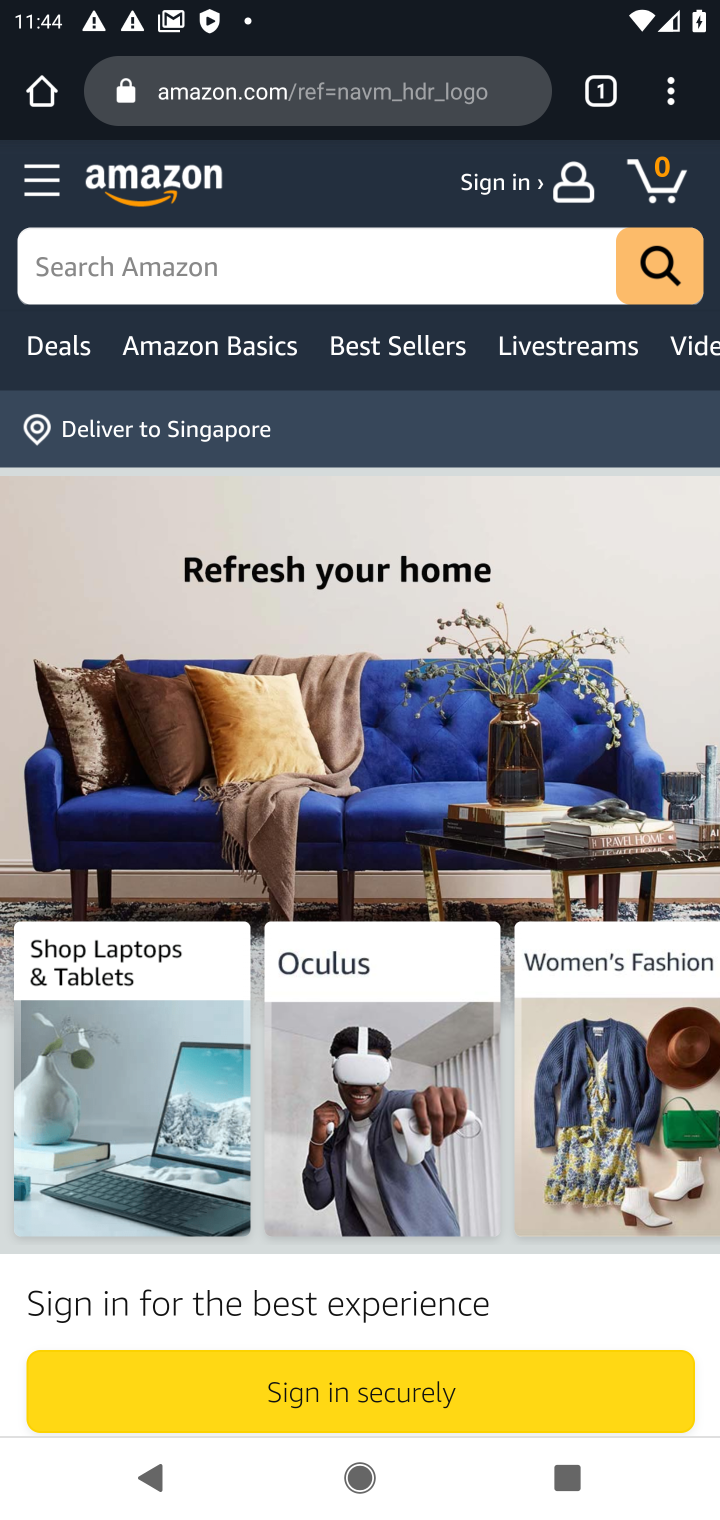
Step 28: drag from (437, 743) to (508, 428)
Your task to perform on an android device: Search for the best rated 3d printer on Amazon. Image 29: 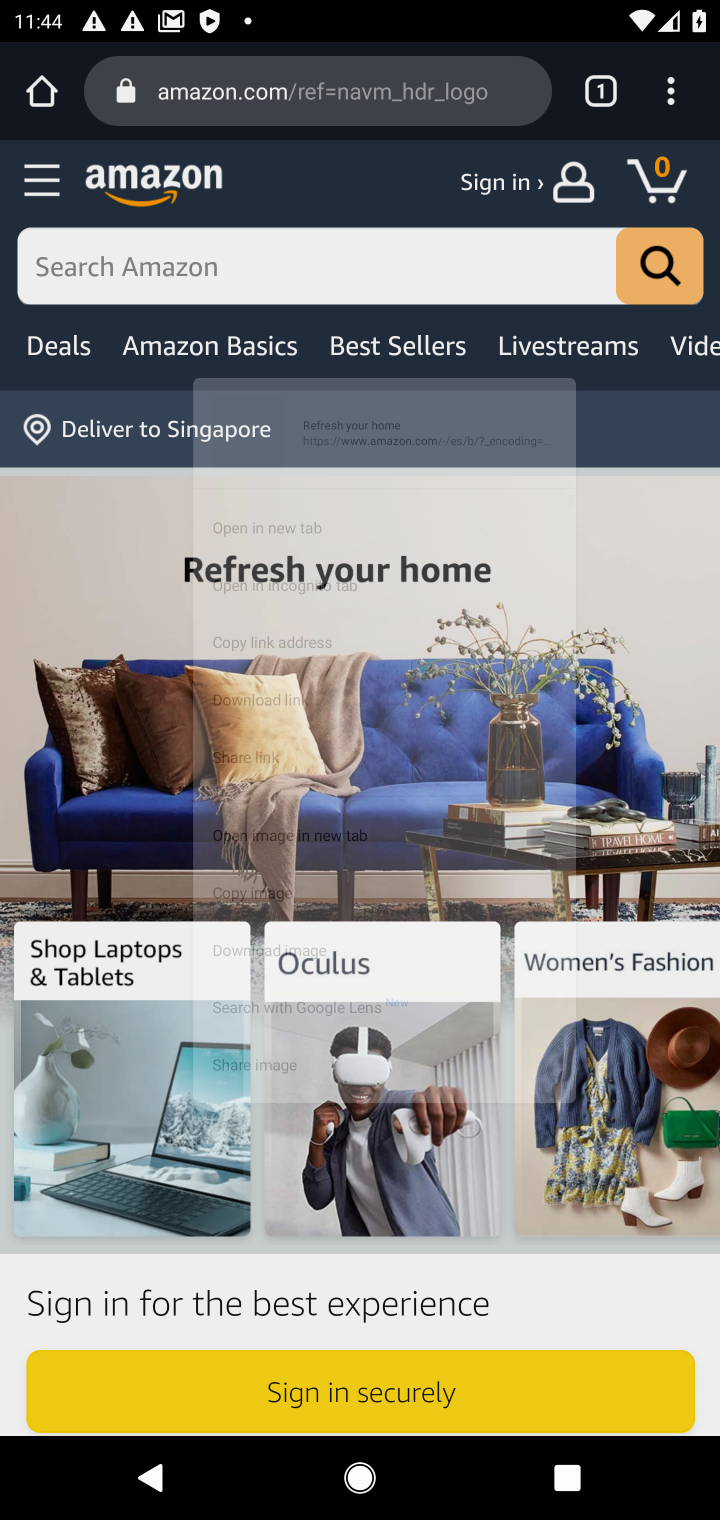
Step 29: click (222, 244)
Your task to perform on an android device: Search for the best rated 3d printer on Amazon. Image 30: 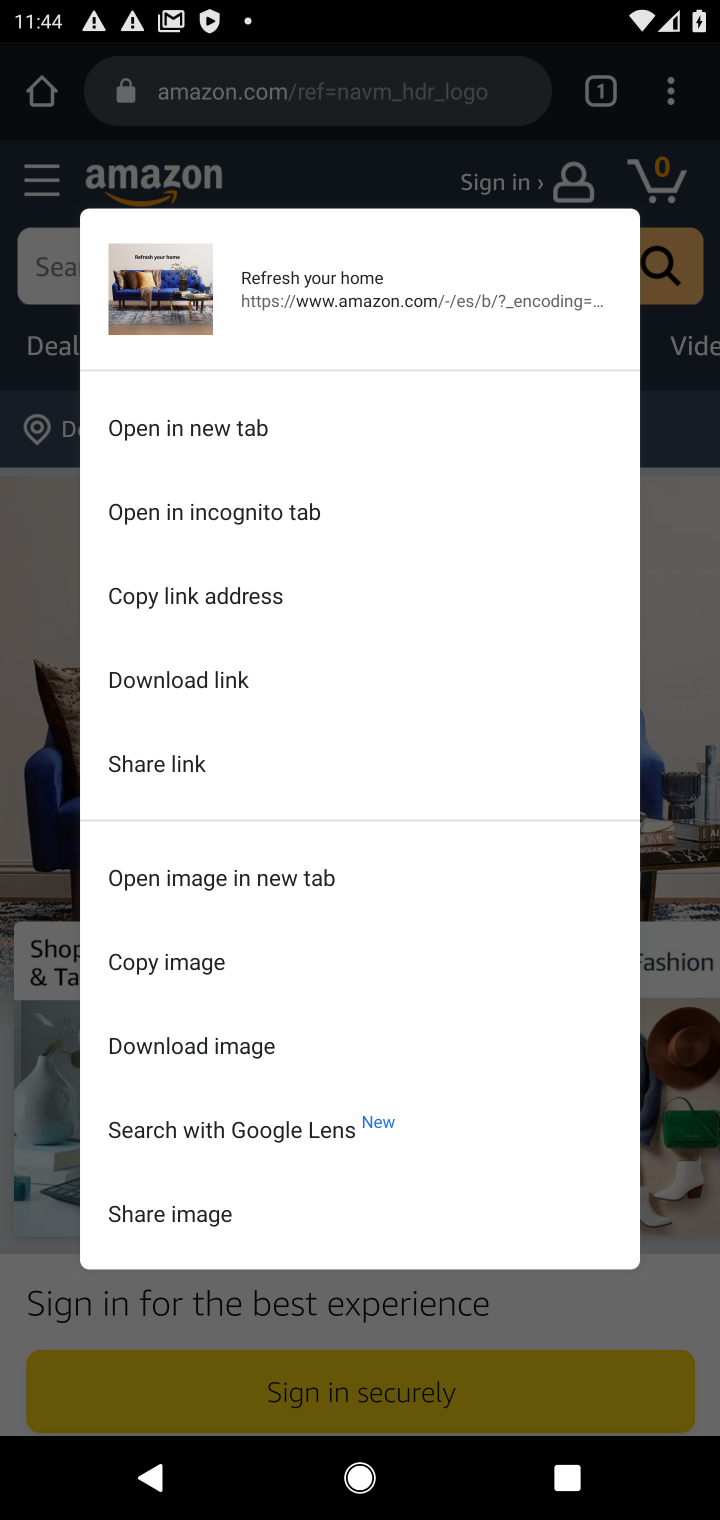
Step 30: click (701, 481)
Your task to perform on an android device: Search for the best rated 3d printer on Amazon. Image 31: 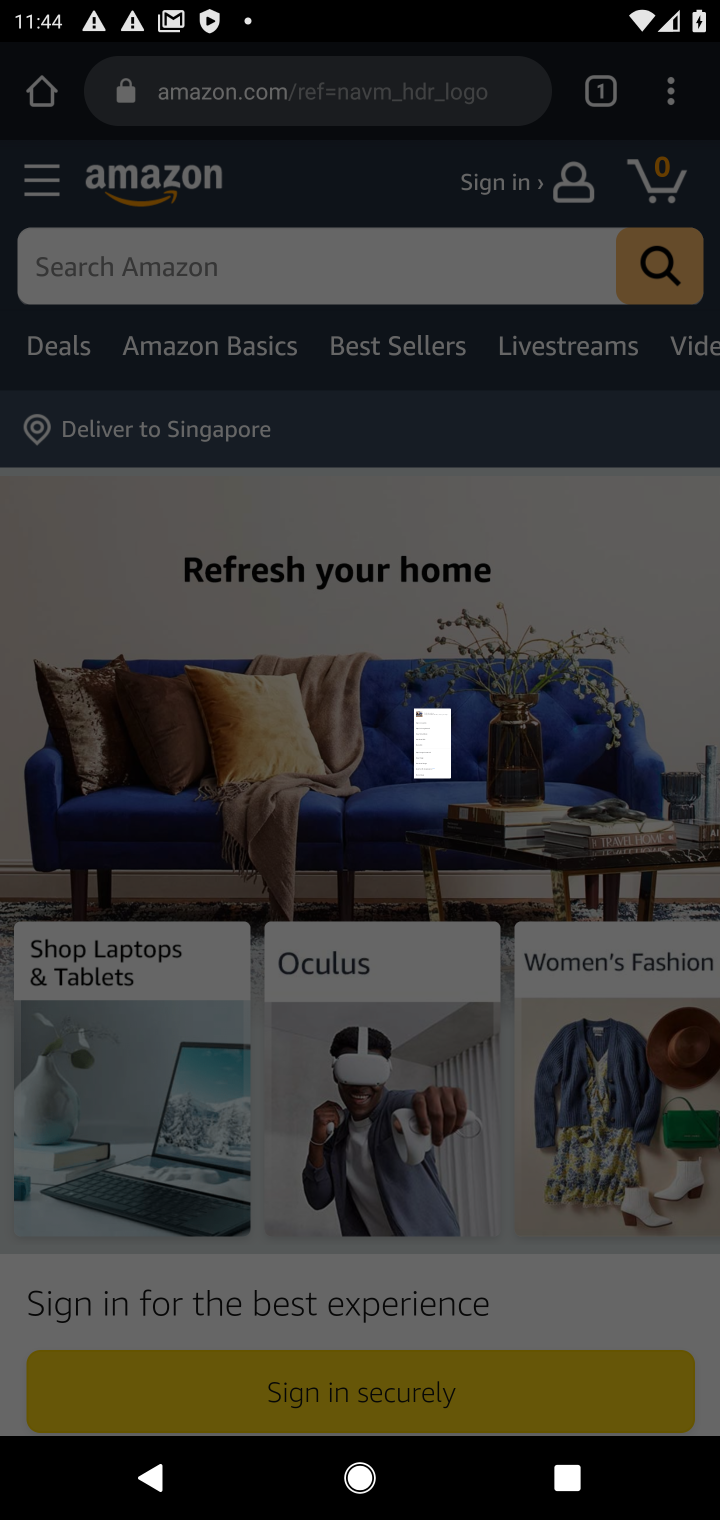
Step 31: click (204, 269)
Your task to perform on an android device: Search for the best rated 3d printer on Amazon. Image 32: 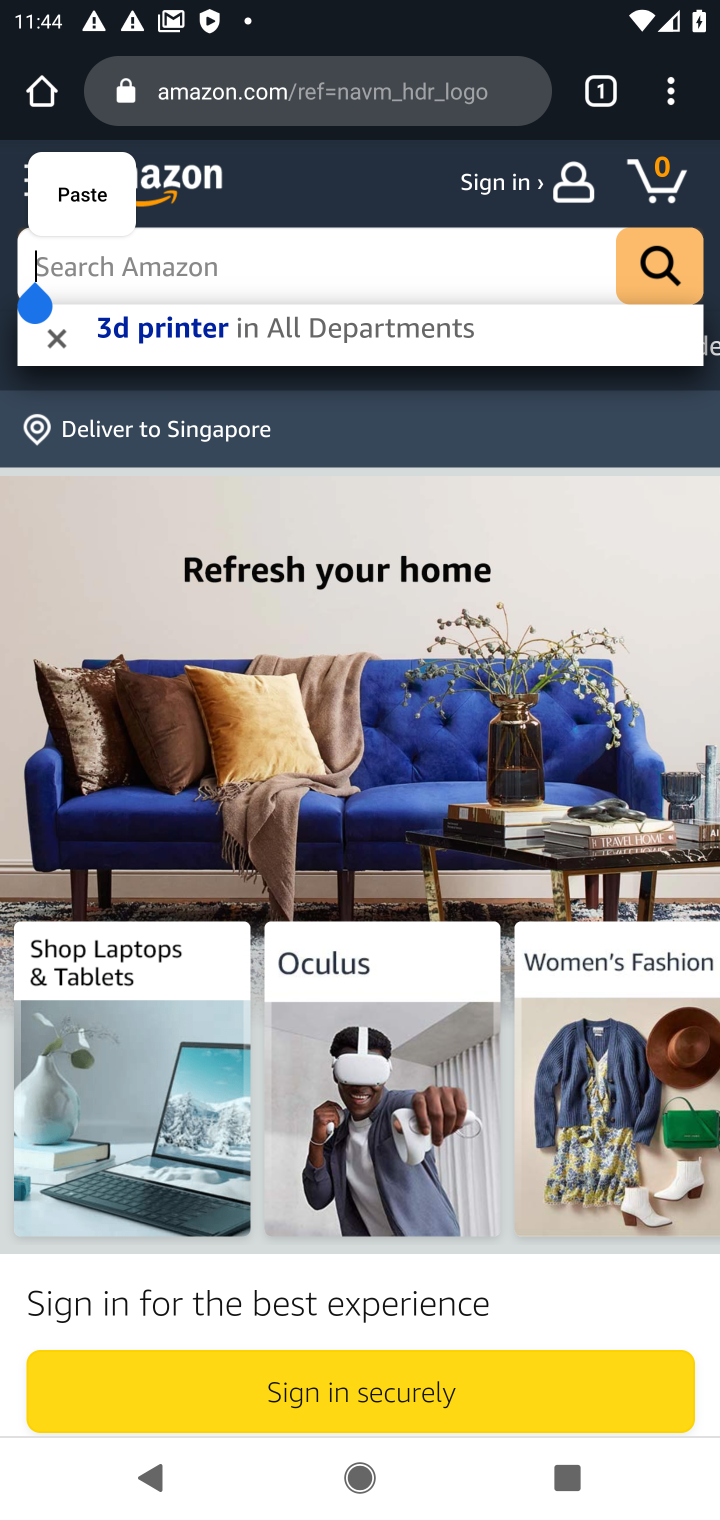
Step 32: type "3d printer"
Your task to perform on an android device: Search for the best rated 3d printer on Amazon. Image 33: 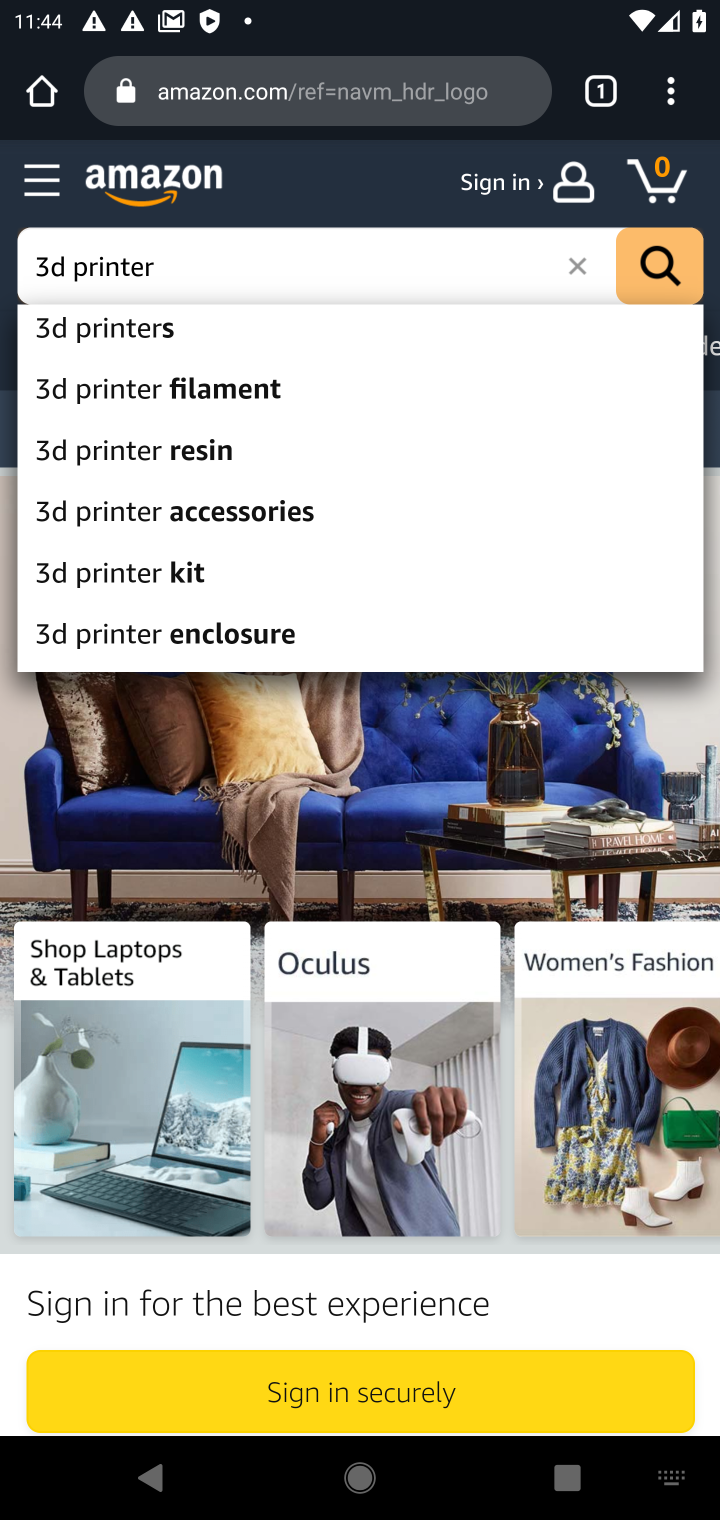
Step 33: click (69, 339)
Your task to perform on an android device: Search for the best rated 3d printer on Amazon. Image 34: 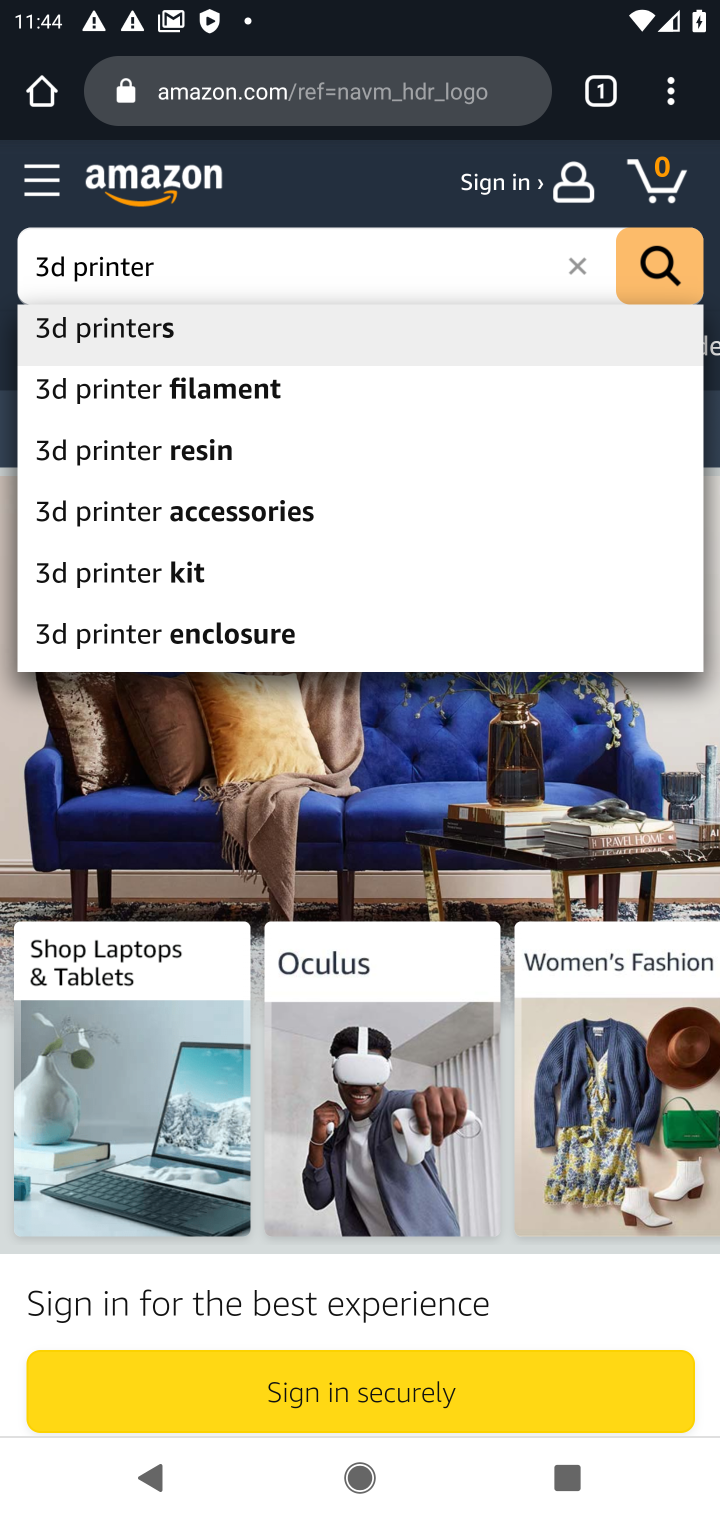
Step 34: click (69, 339)
Your task to perform on an android device: Search for the best rated 3d printer on Amazon. Image 35: 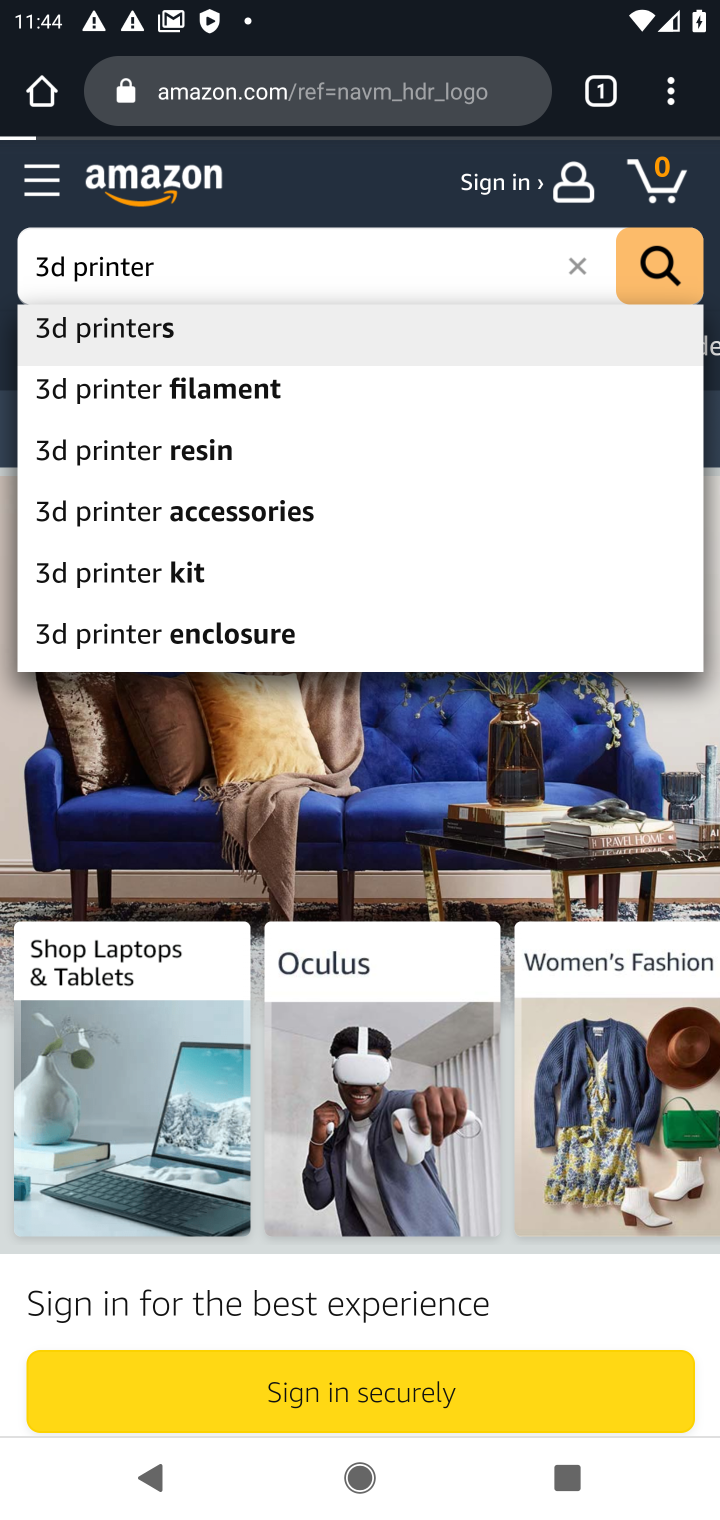
Step 35: click (77, 325)
Your task to perform on an android device: Search for the best rated 3d printer on Amazon. Image 36: 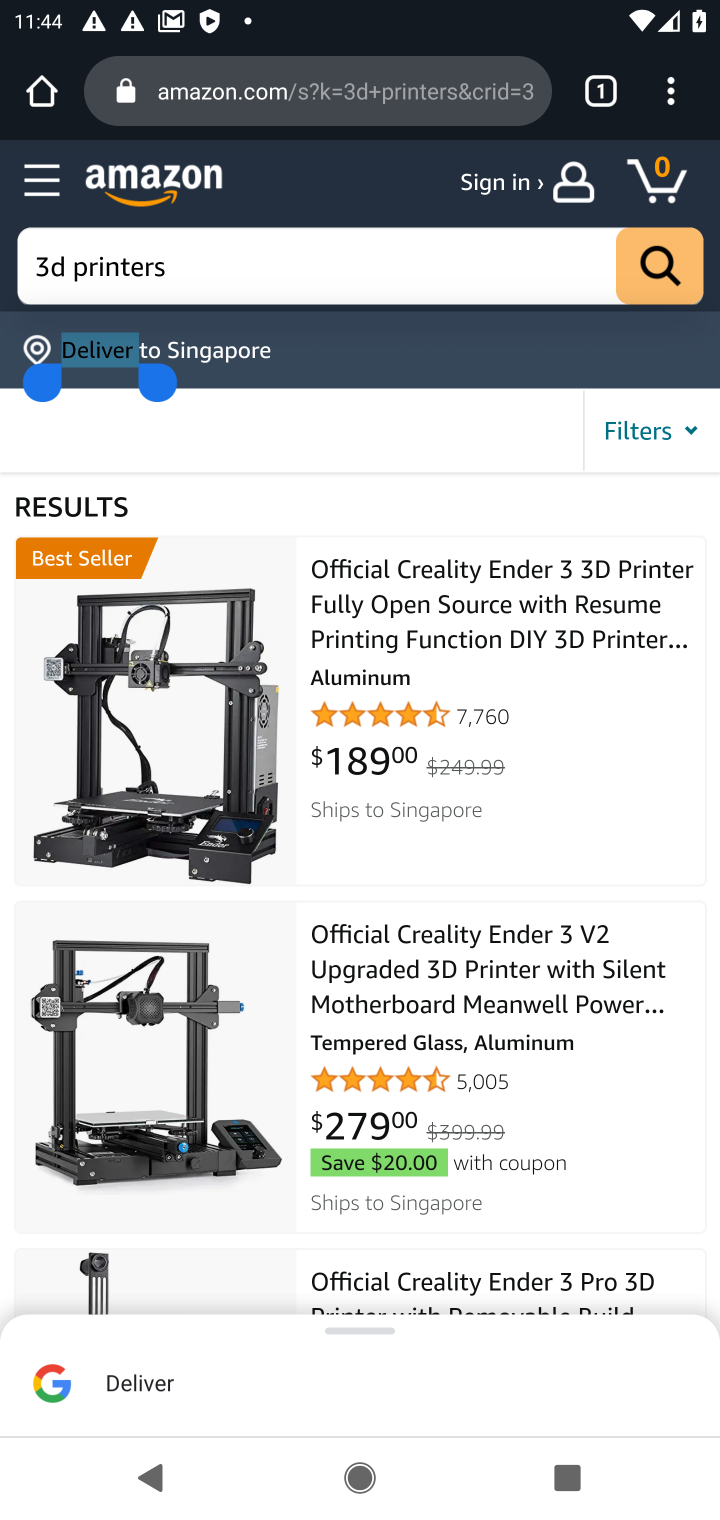
Step 36: click (632, 435)
Your task to perform on an android device: Search for the best rated 3d printer on Amazon. Image 37: 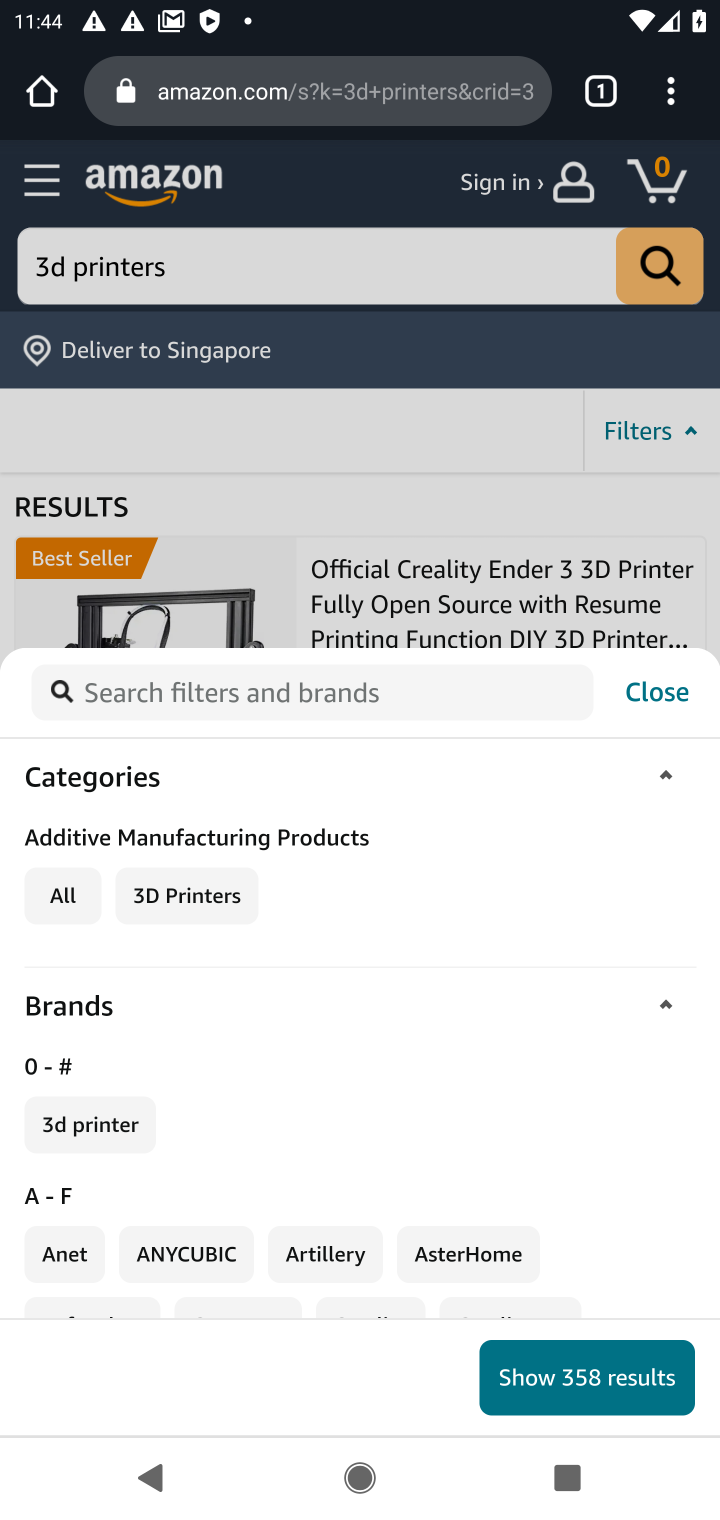
Step 37: drag from (548, 834) to (601, 904)
Your task to perform on an android device: Search for the best rated 3d printer on Amazon. Image 38: 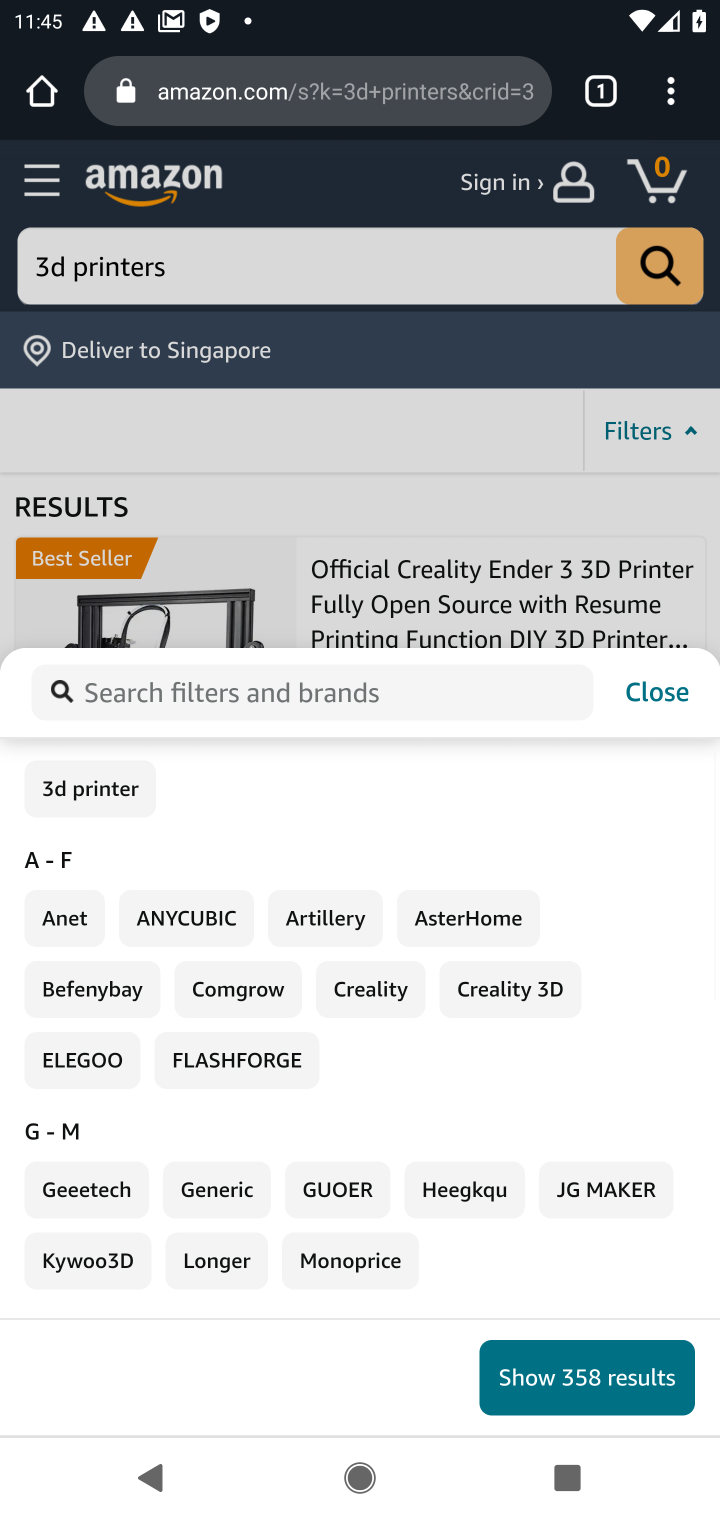
Step 38: drag from (670, 1200) to (642, 745)
Your task to perform on an android device: Search for the best rated 3d printer on Amazon. Image 39: 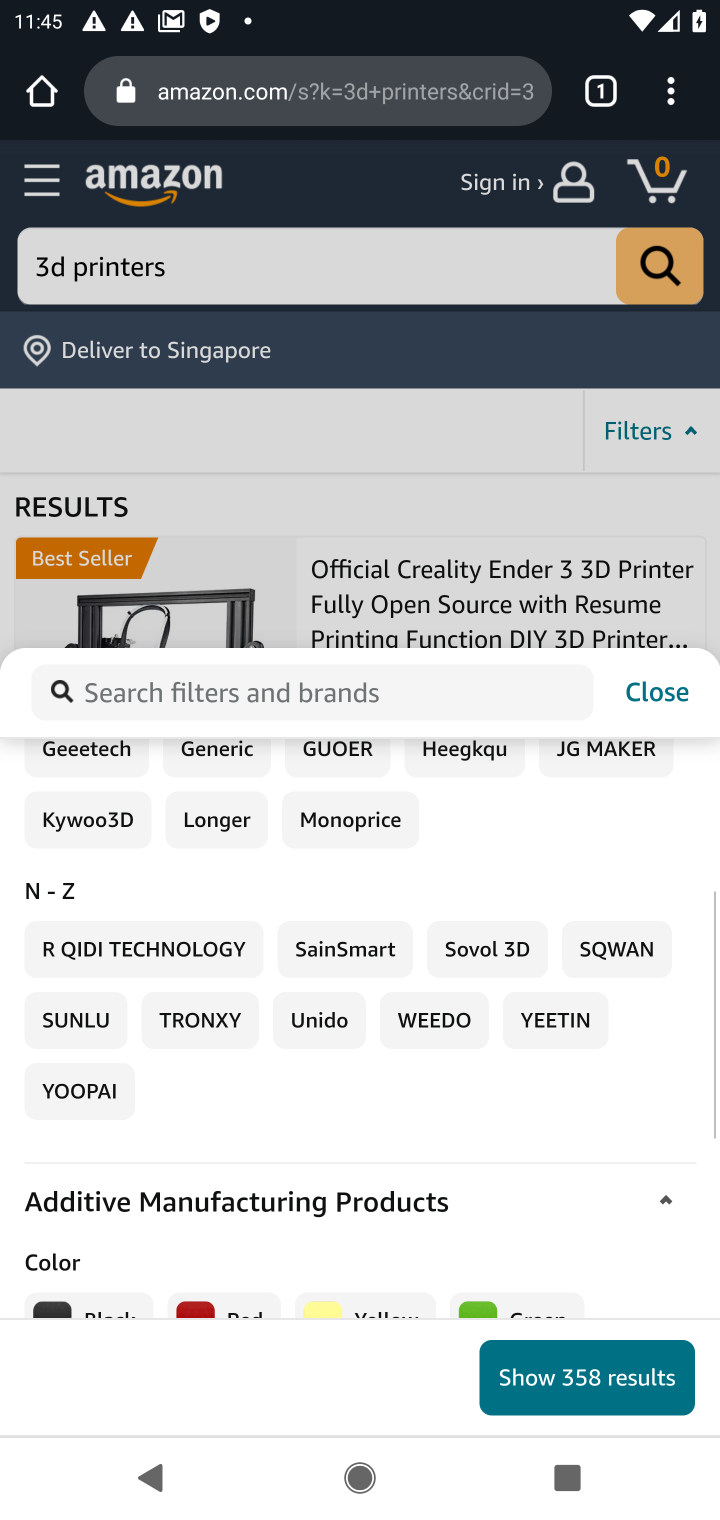
Step 39: drag from (514, 1095) to (475, 784)
Your task to perform on an android device: Search for the best rated 3d printer on Amazon. Image 40: 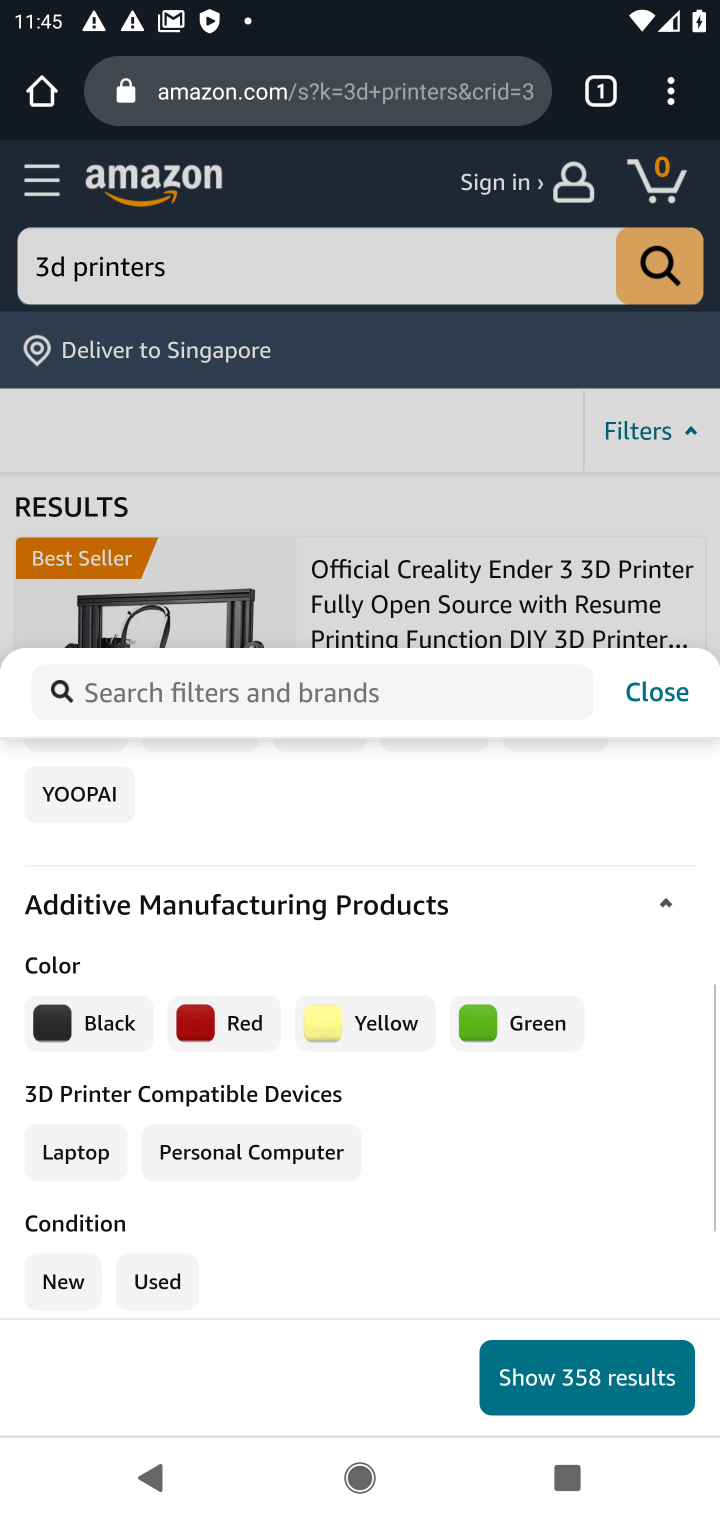
Step 40: drag from (474, 1196) to (484, 723)
Your task to perform on an android device: Search for the best rated 3d printer on Amazon. Image 41: 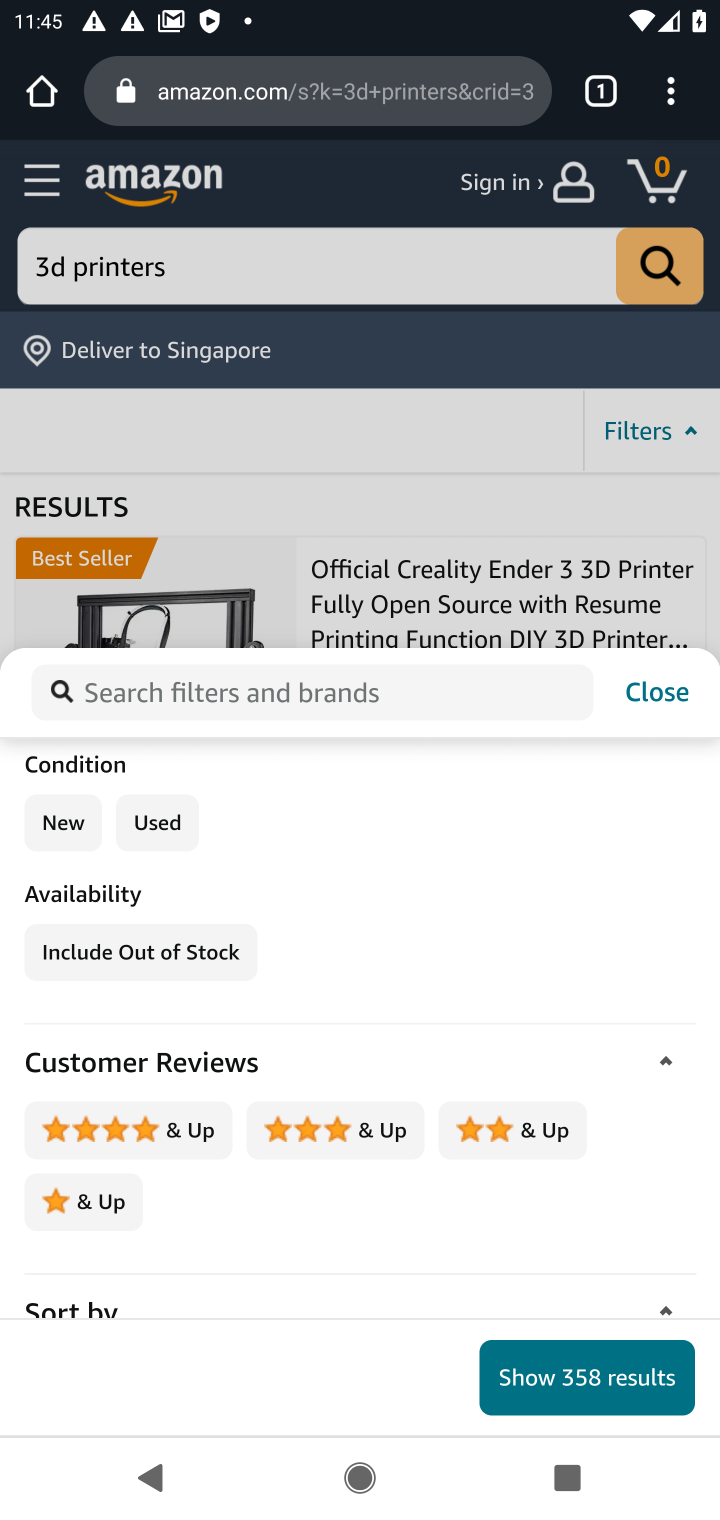
Step 41: click (98, 1126)
Your task to perform on an android device: Search for the best rated 3d printer on Amazon. Image 42: 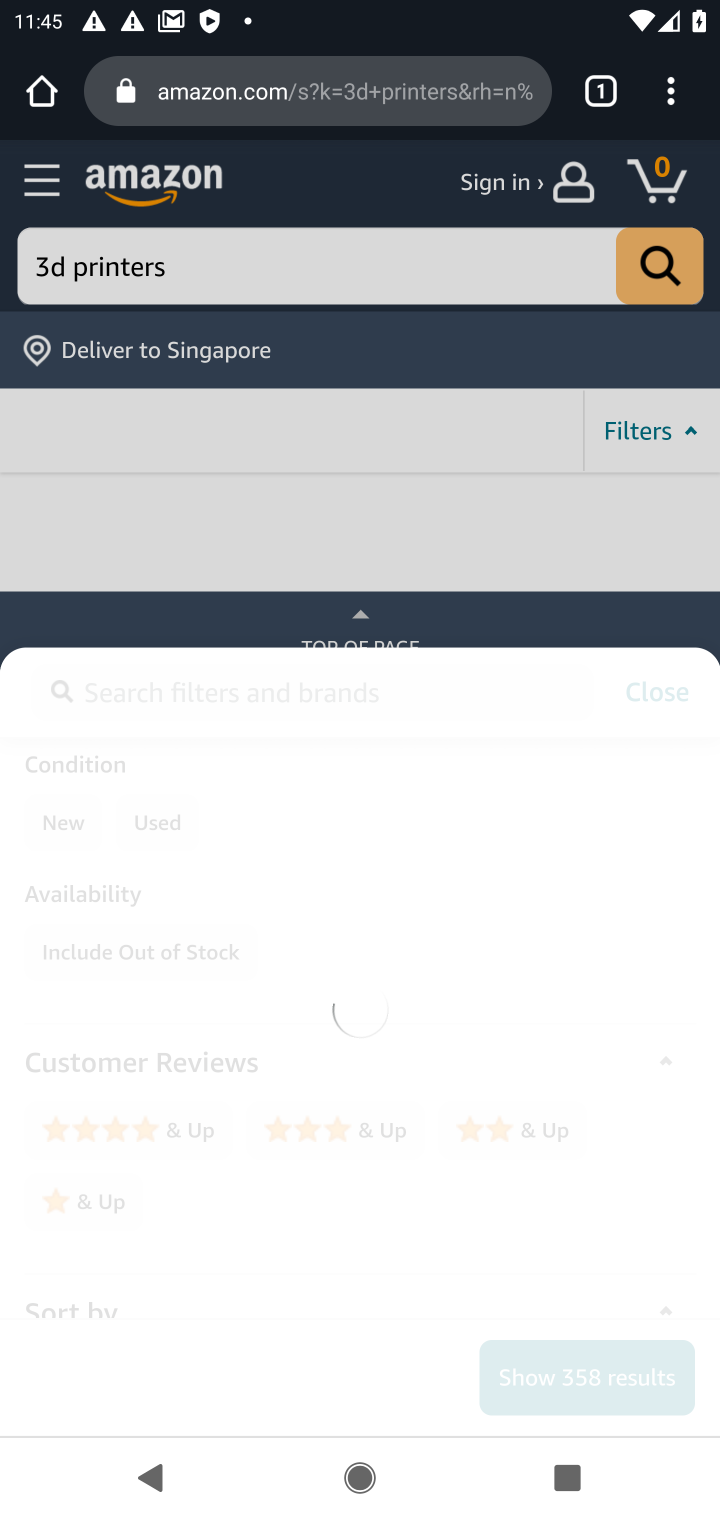
Step 42: click (566, 1389)
Your task to perform on an android device: Search for the best rated 3d printer on Amazon. Image 43: 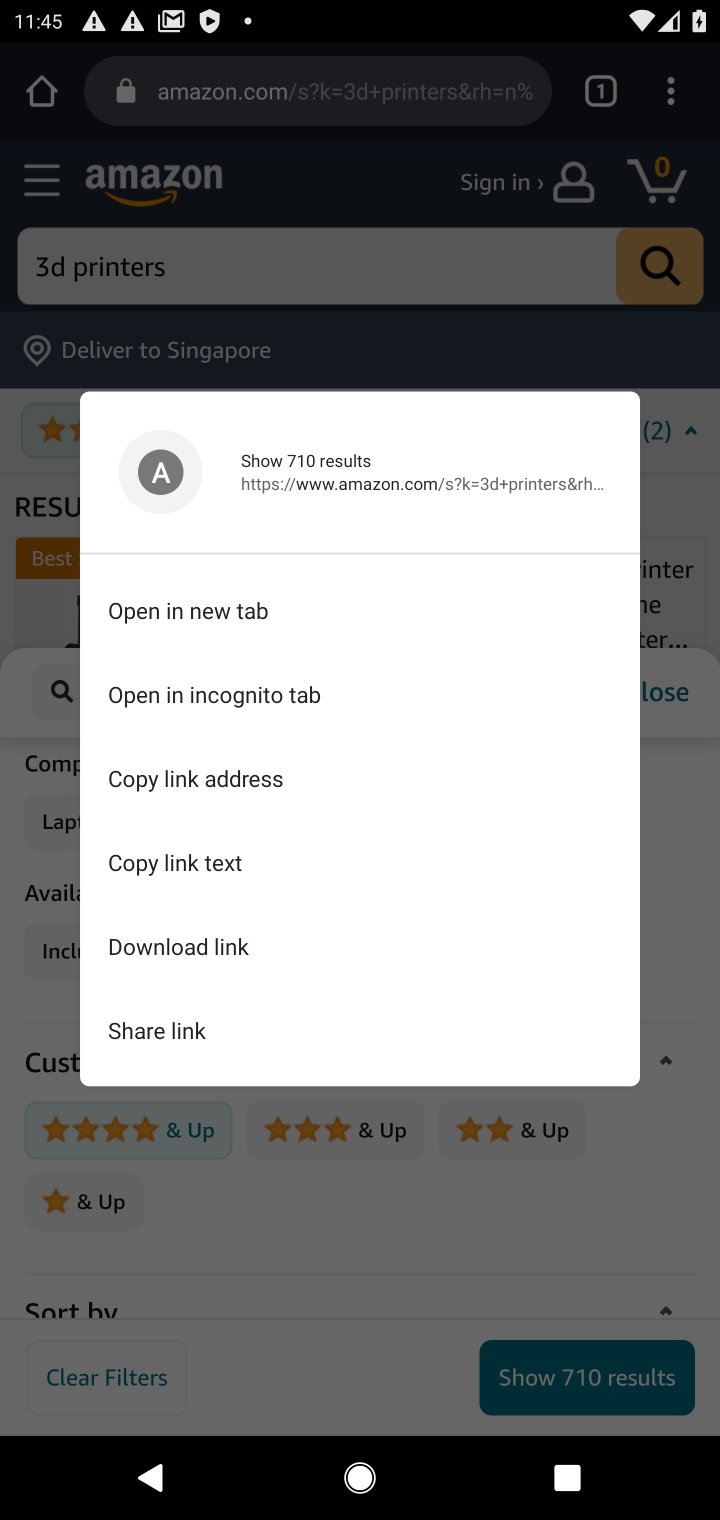
Step 43: click (689, 963)
Your task to perform on an android device: Search for the best rated 3d printer on Amazon. Image 44: 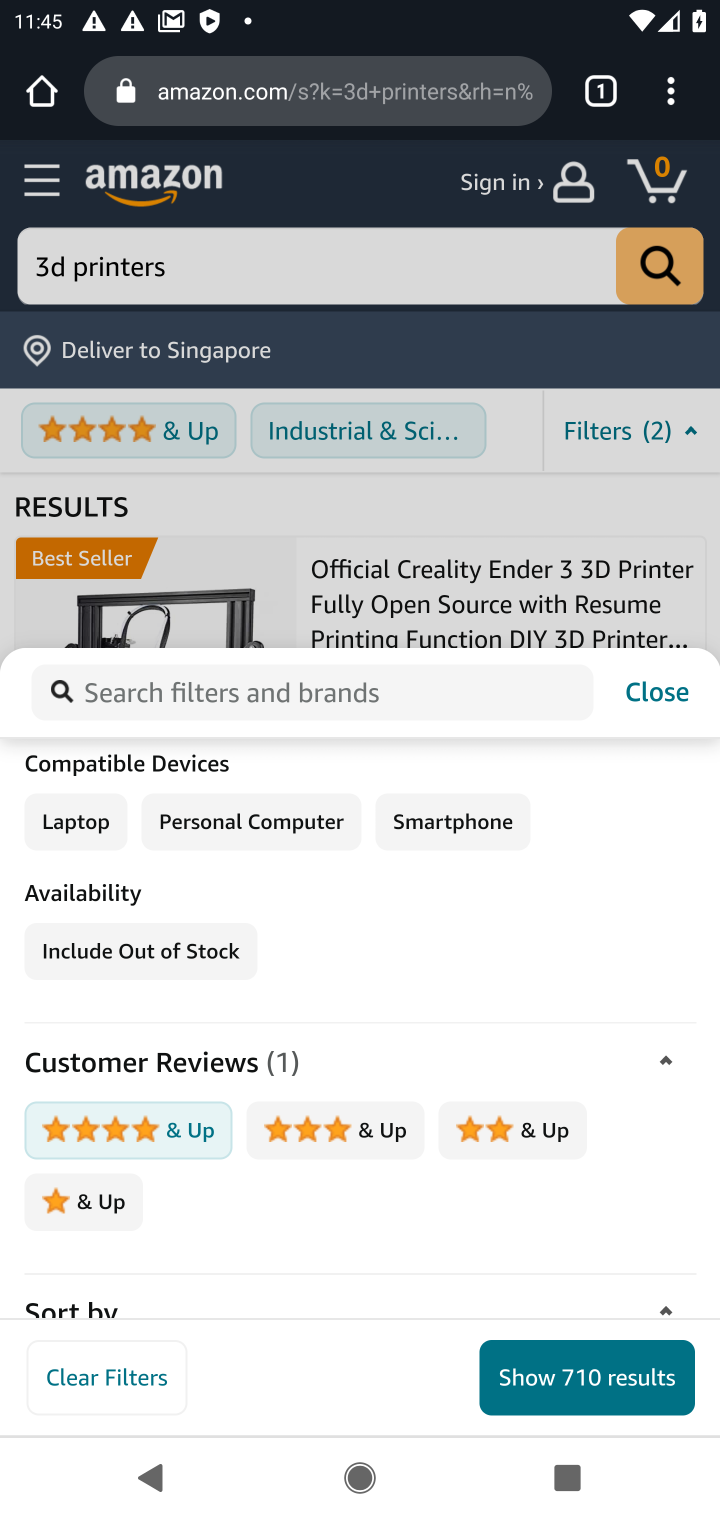
Step 44: click (349, 773)
Your task to perform on an android device: Search for the best rated 3d printer on Amazon. Image 45: 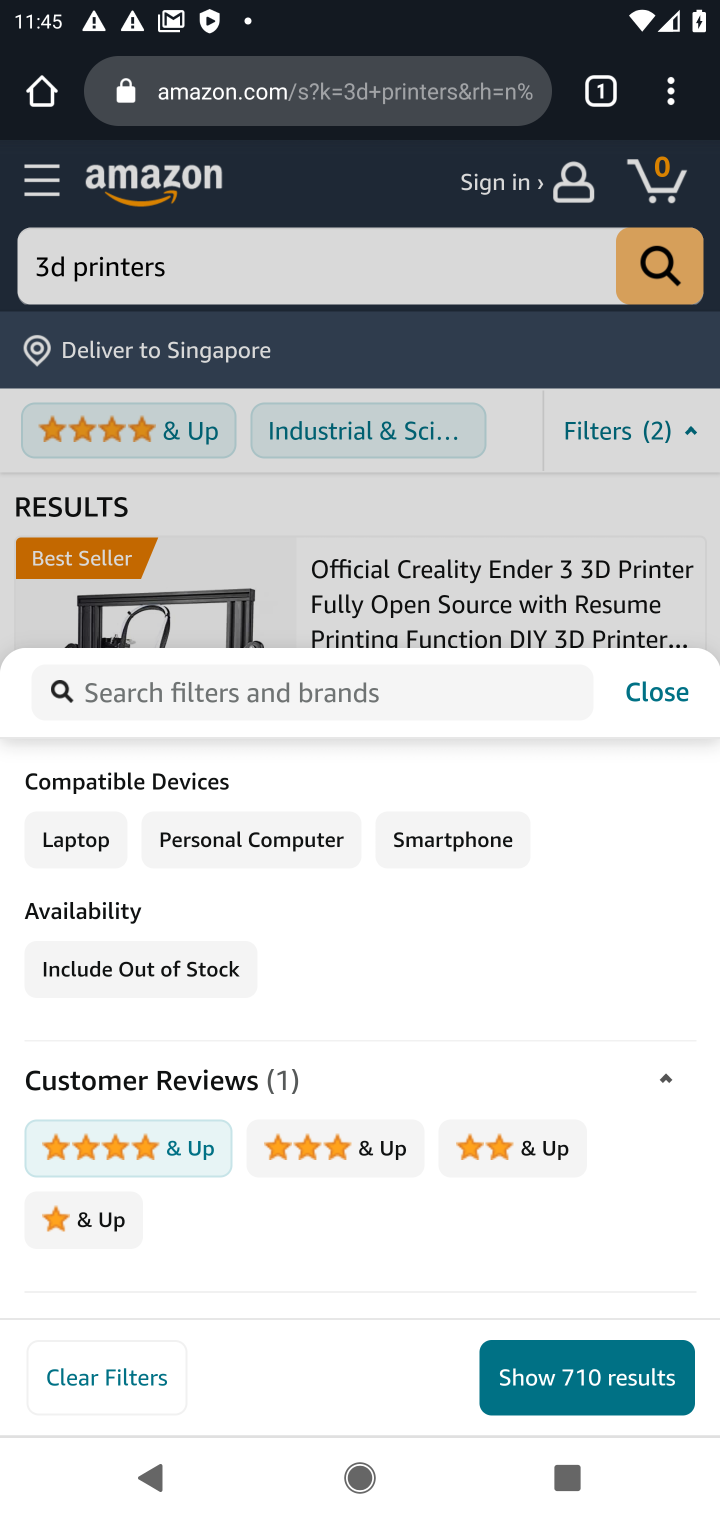
Step 45: task complete